Your task to perform on an android device: Show the shopping cart on amazon.com. Search for "dell alienware" on amazon.com, select the first entry, and add it to the cart. Image 0: 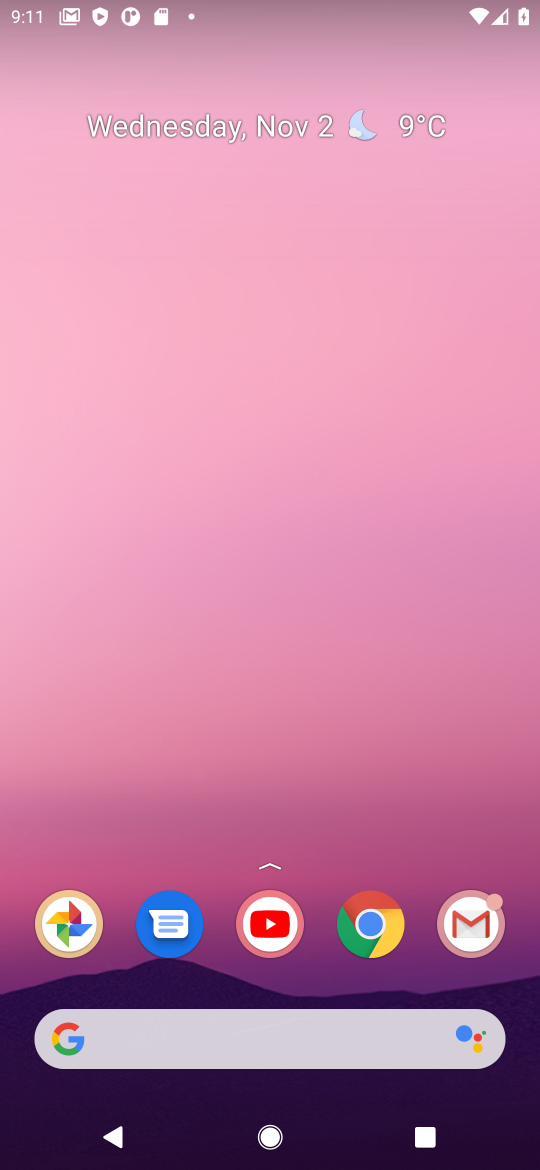
Step 0: click (363, 928)
Your task to perform on an android device: Show the shopping cart on amazon.com. Search for "dell alienware" on amazon.com, select the first entry, and add it to the cart. Image 1: 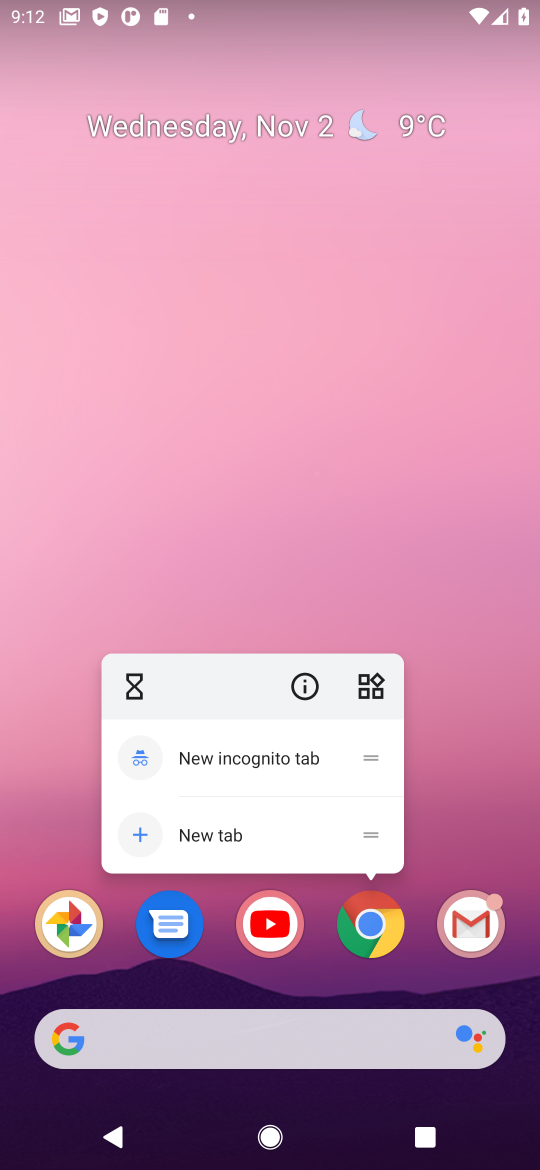
Step 1: click (396, 921)
Your task to perform on an android device: Show the shopping cart on amazon.com. Search for "dell alienware" on amazon.com, select the first entry, and add it to the cart. Image 2: 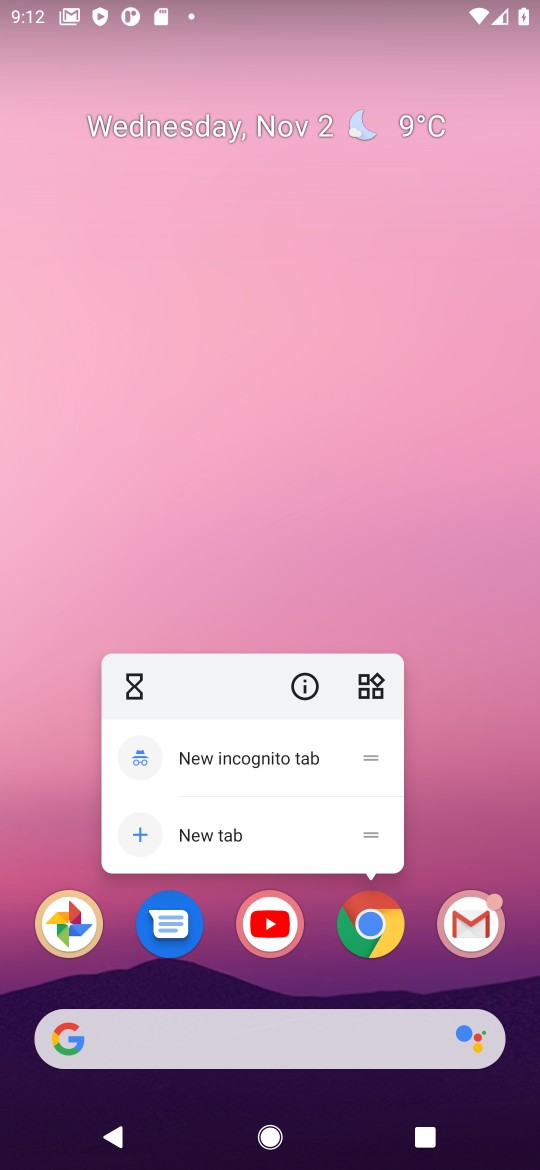
Step 2: click (375, 929)
Your task to perform on an android device: Show the shopping cart on amazon.com. Search for "dell alienware" on amazon.com, select the first entry, and add it to the cart. Image 3: 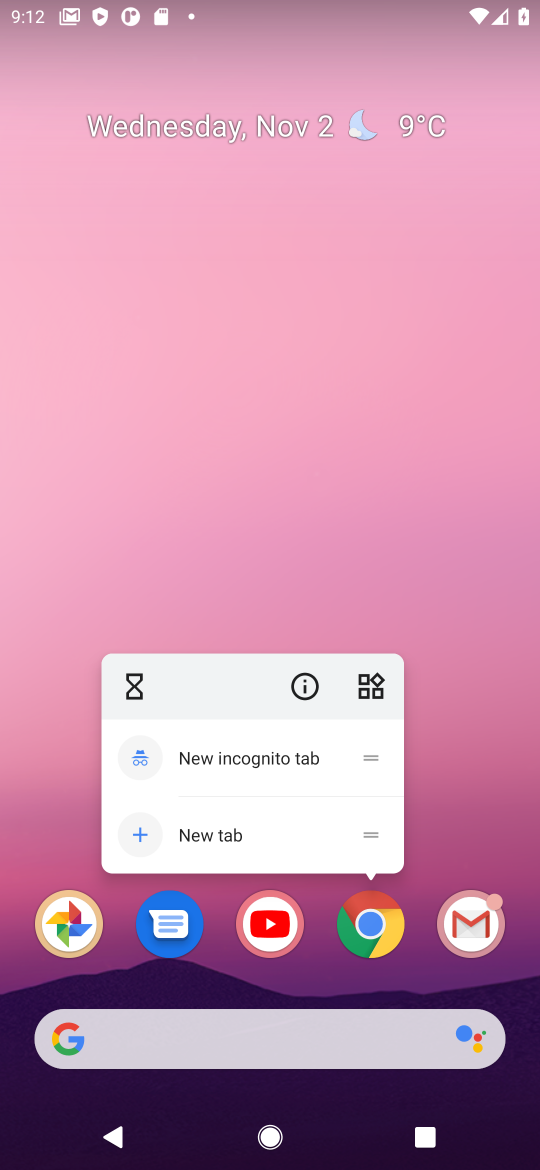
Step 3: click (375, 930)
Your task to perform on an android device: Show the shopping cart on amazon.com. Search for "dell alienware" on amazon.com, select the first entry, and add it to the cart. Image 4: 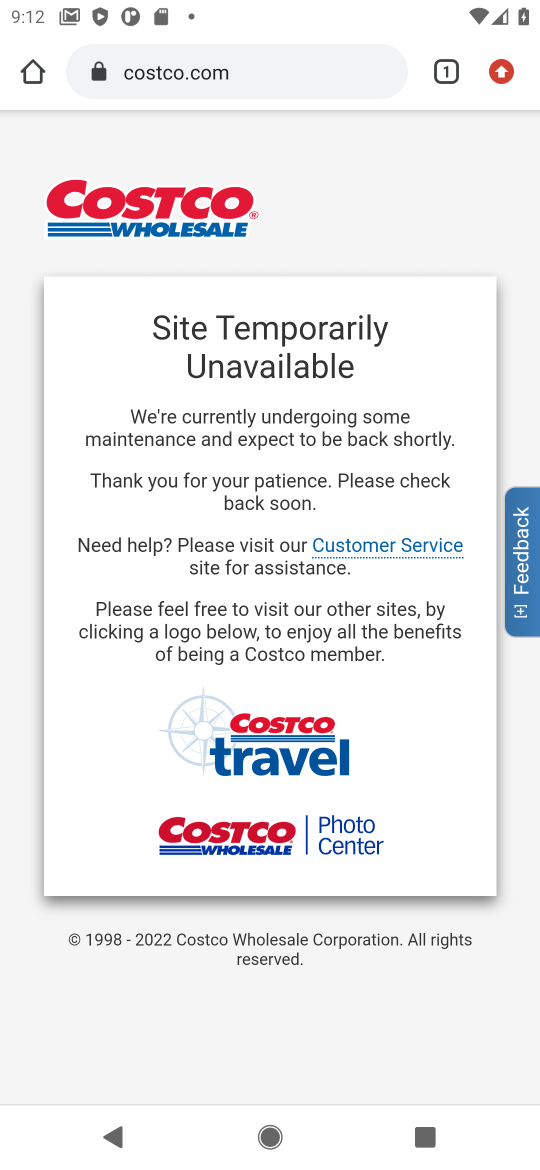
Step 4: click (250, 69)
Your task to perform on an android device: Show the shopping cart on amazon.com. Search for "dell alienware" on amazon.com, select the first entry, and add it to the cart. Image 5: 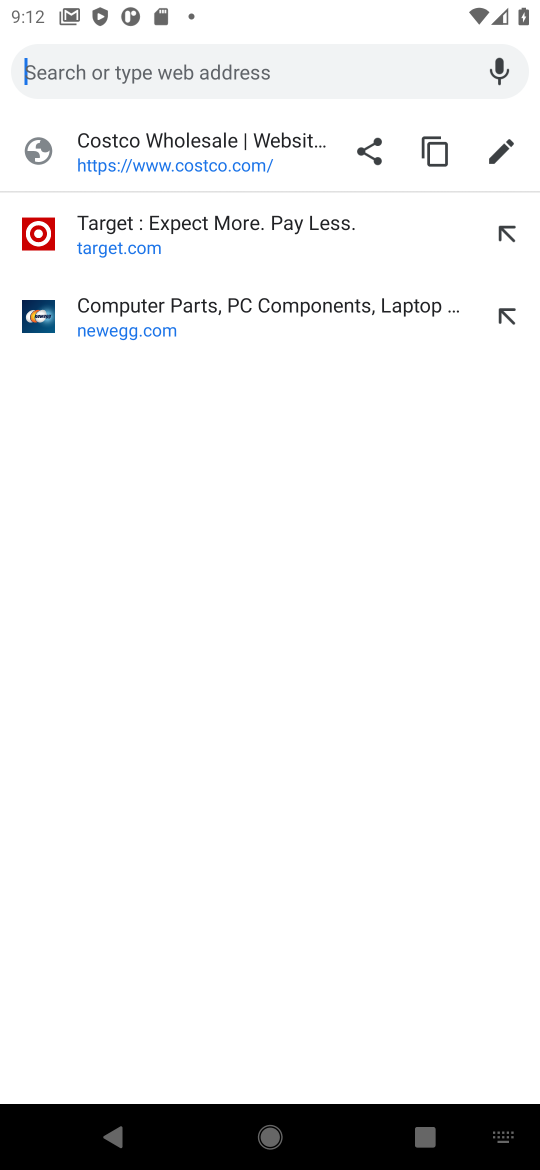
Step 5: type "amazon"
Your task to perform on an android device: Show the shopping cart on amazon.com. Search for "dell alienware" on amazon.com, select the first entry, and add it to the cart. Image 6: 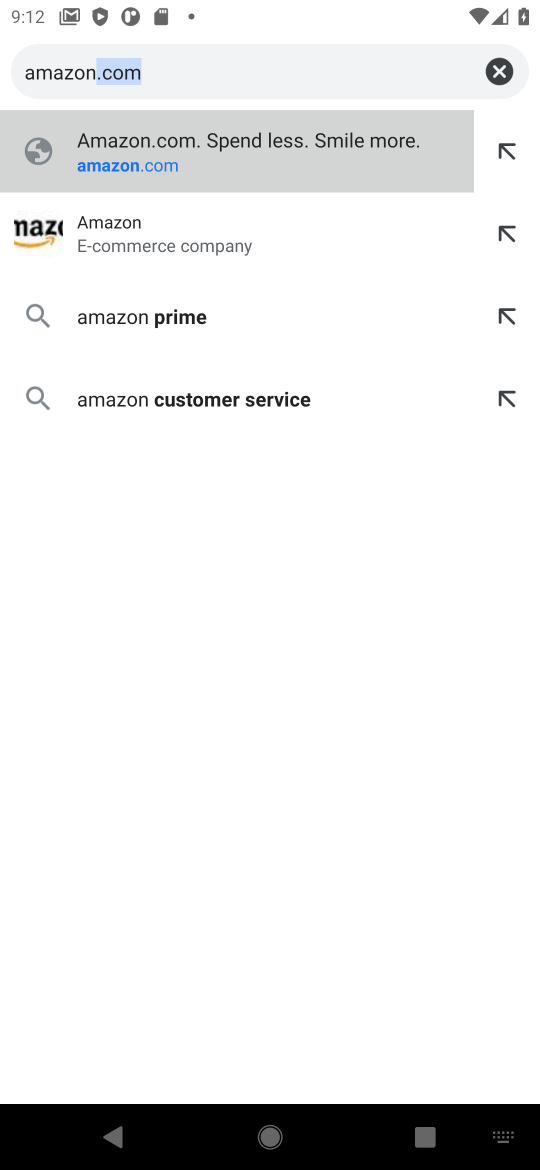
Step 6: click (147, 260)
Your task to perform on an android device: Show the shopping cart on amazon.com. Search for "dell alienware" on amazon.com, select the first entry, and add it to the cart. Image 7: 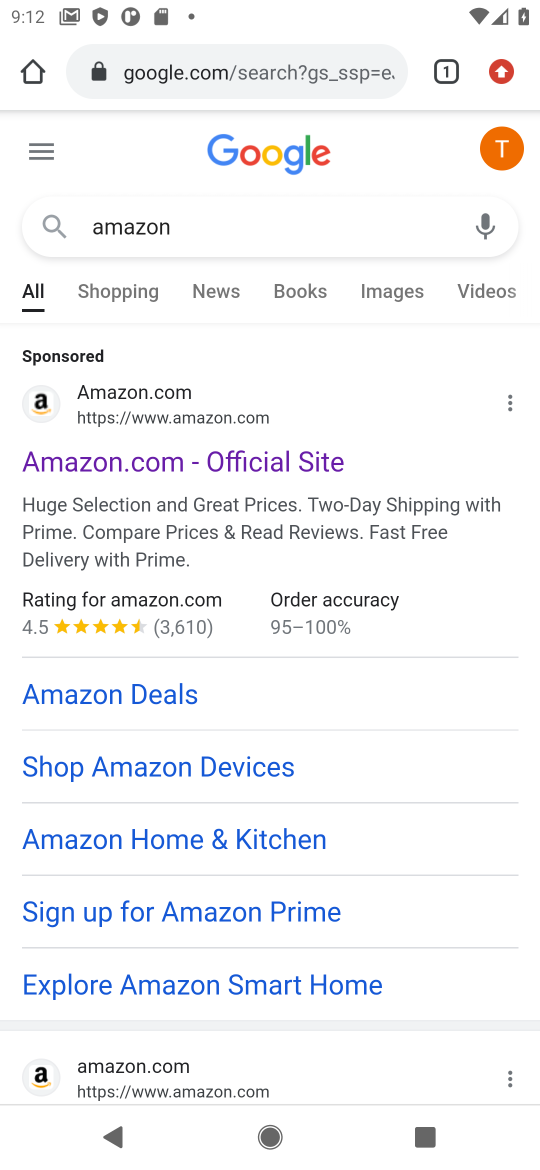
Step 7: drag from (353, 712) to (342, 188)
Your task to perform on an android device: Show the shopping cart on amazon.com. Search for "dell alienware" on amazon.com, select the first entry, and add it to the cart. Image 8: 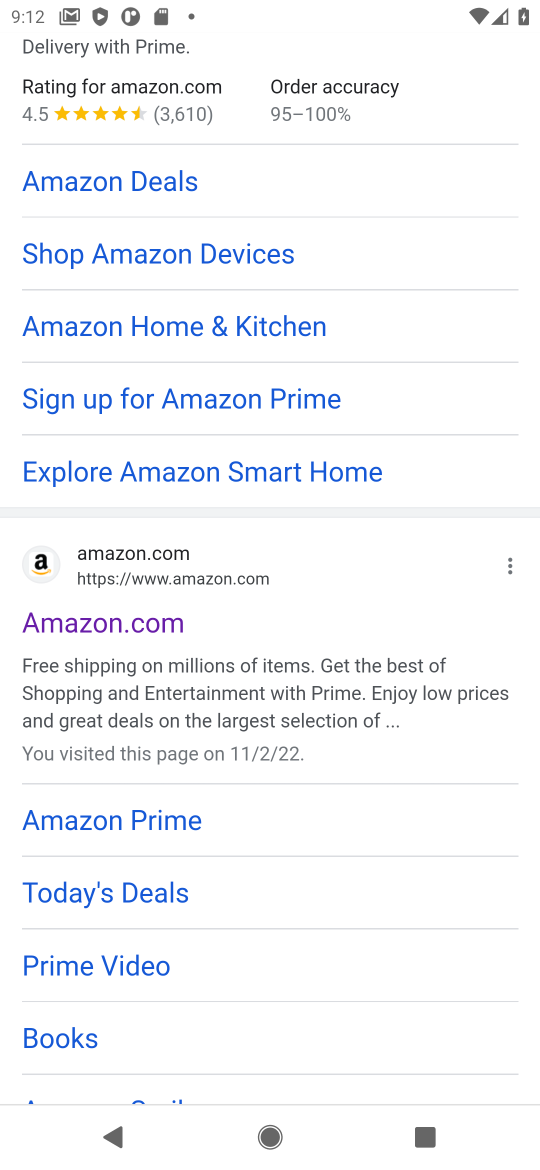
Step 8: click (60, 632)
Your task to perform on an android device: Show the shopping cart on amazon.com. Search for "dell alienware" on amazon.com, select the first entry, and add it to the cart. Image 9: 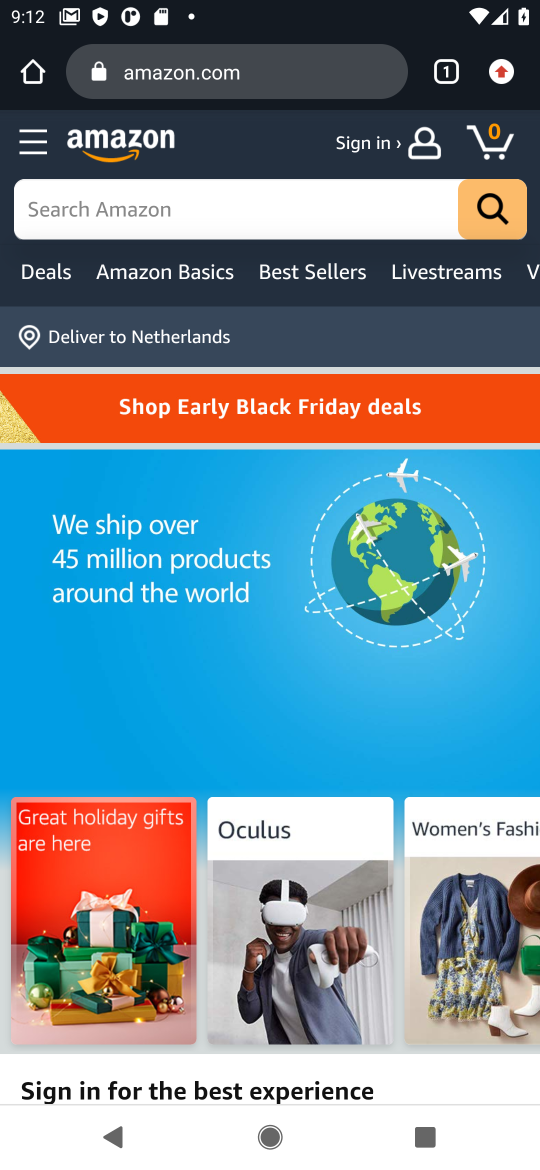
Step 9: click (107, 218)
Your task to perform on an android device: Show the shopping cart on amazon.com. Search for "dell alienware" on amazon.com, select the first entry, and add it to the cart. Image 10: 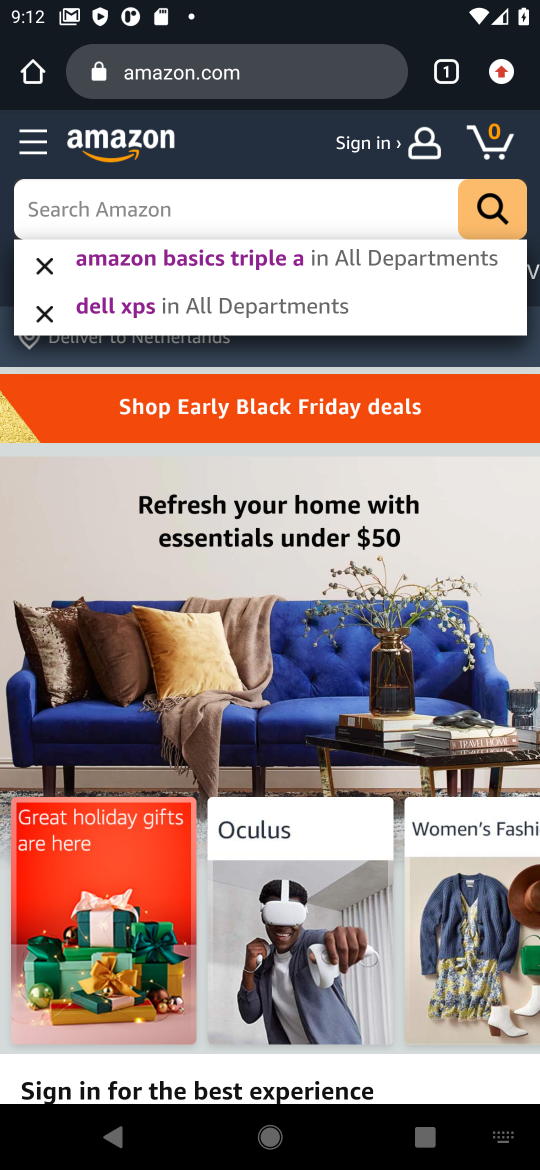
Step 10: type "dell allienware"
Your task to perform on an android device: Show the shopping cart on amazon.com. Search for "dell alienware" on amazon.com, select the first entry, and add it to the cart. Image 11: 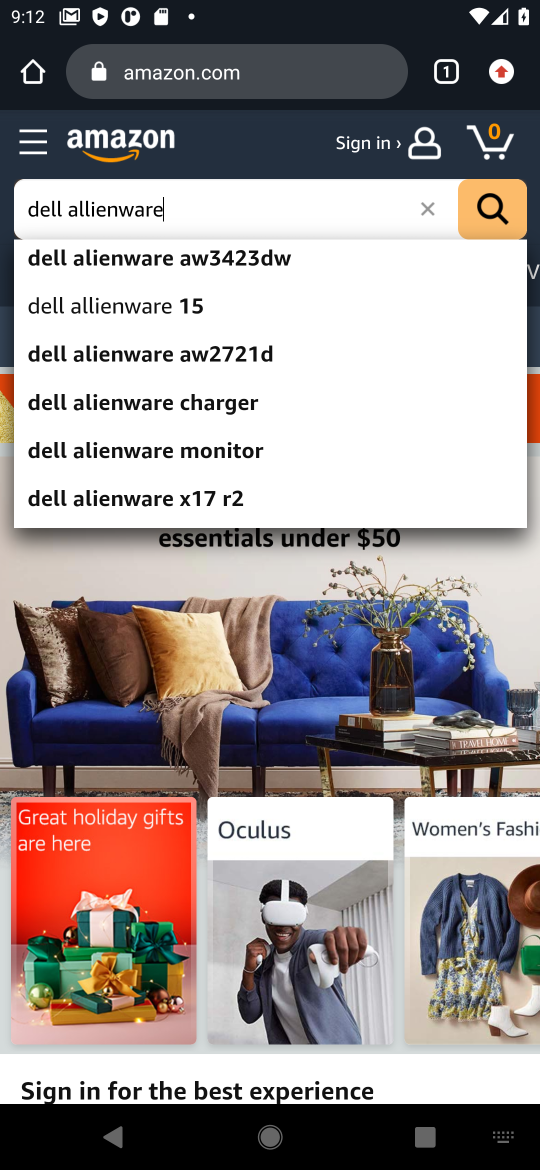
Step 11: type ""
Your task to perform on an android device: Show the shopping cart on amazon.com. Search for "dell alienware" on amazon.com, select the first entry, and add it to the cart. Image 12: 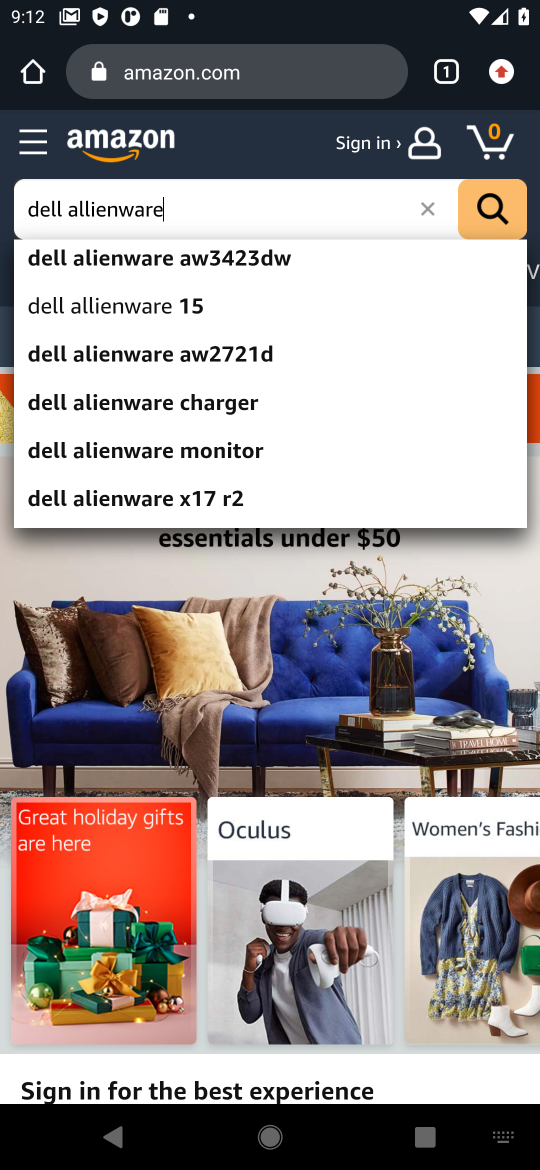
Step 12: click (128, 307)
Your task to perform on an android device: Show the shopping cart on amazon.com. Search for "dell alienware" on amazon.com, select the first entry, and add it to the cart. Image 13: 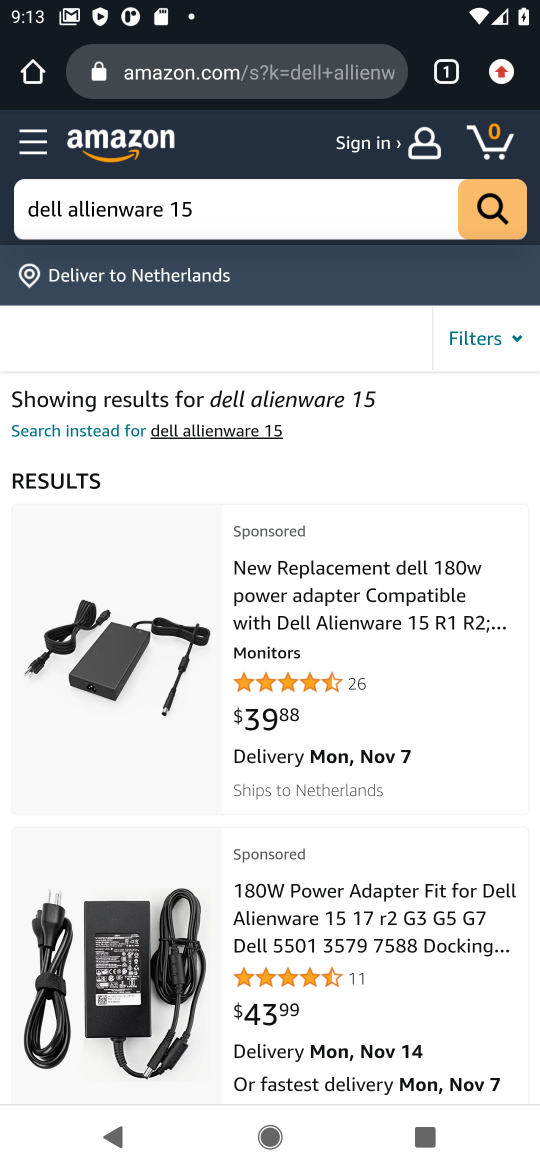
Step 13: drag from (297, 749) to (235, 275)
Your task to perform on an android device: Show the shopping cart on amazon.com. Search for "dell alienware" on amazon.com, select the first entry, and add it to the cart. Image 14: 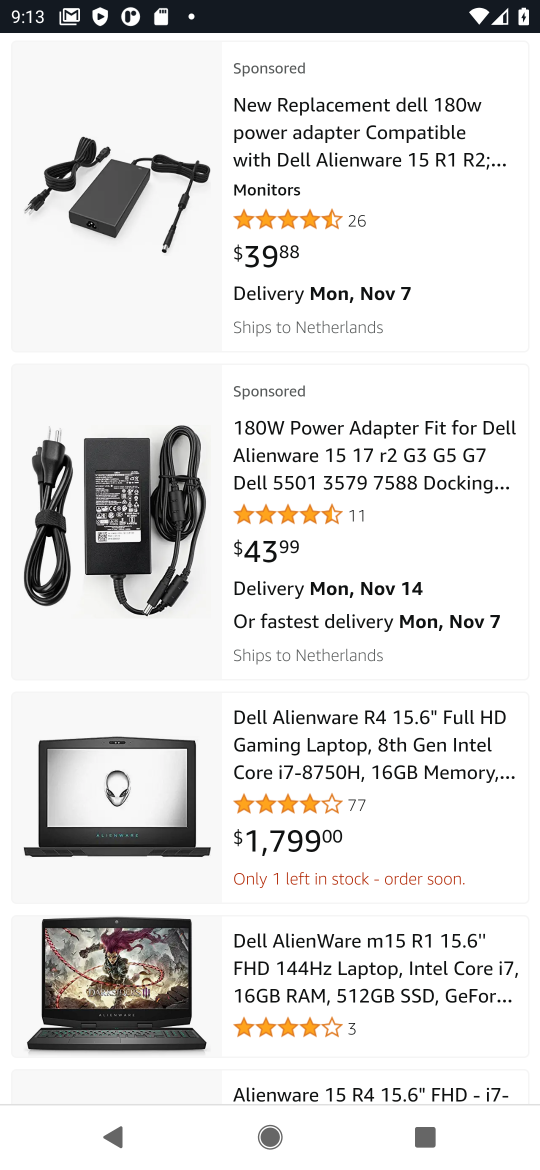
Step 14: click (297, 760)
Your task to perform on an android device: Show the shopping cart on amazon.com. Search for "dell alienware" on amazon.com, select the first entry, and add it to the cart. Image 15: 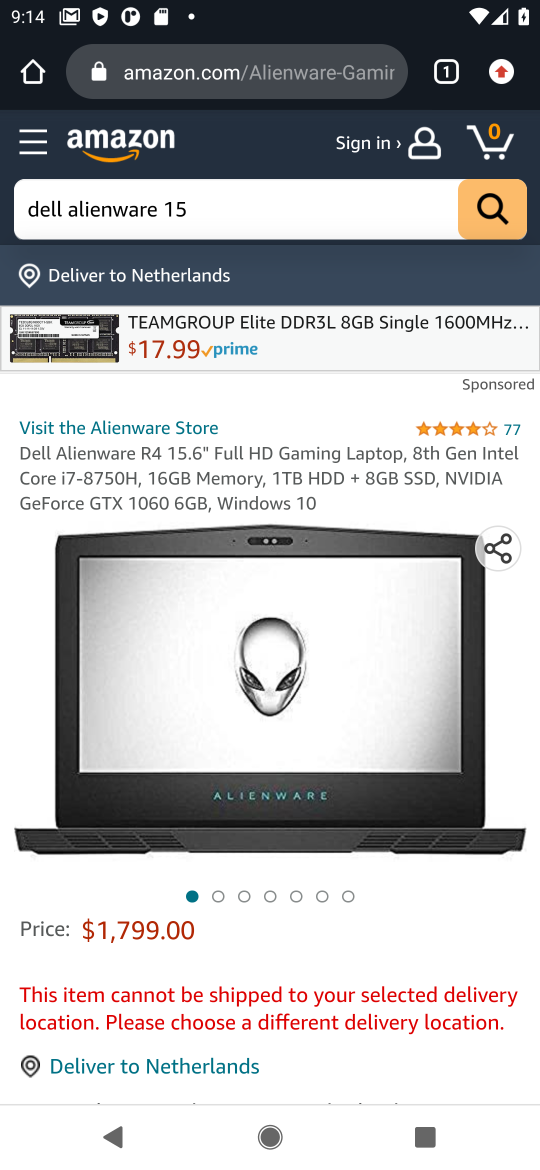
Step 15: drag from (244, 849) to (262, 497)
Your task to perform on an android device: Show the shopping cart on amazon.com. Search for "dell alienware" on amazon.com, select the first entry, and add it to the cart. Image 16: 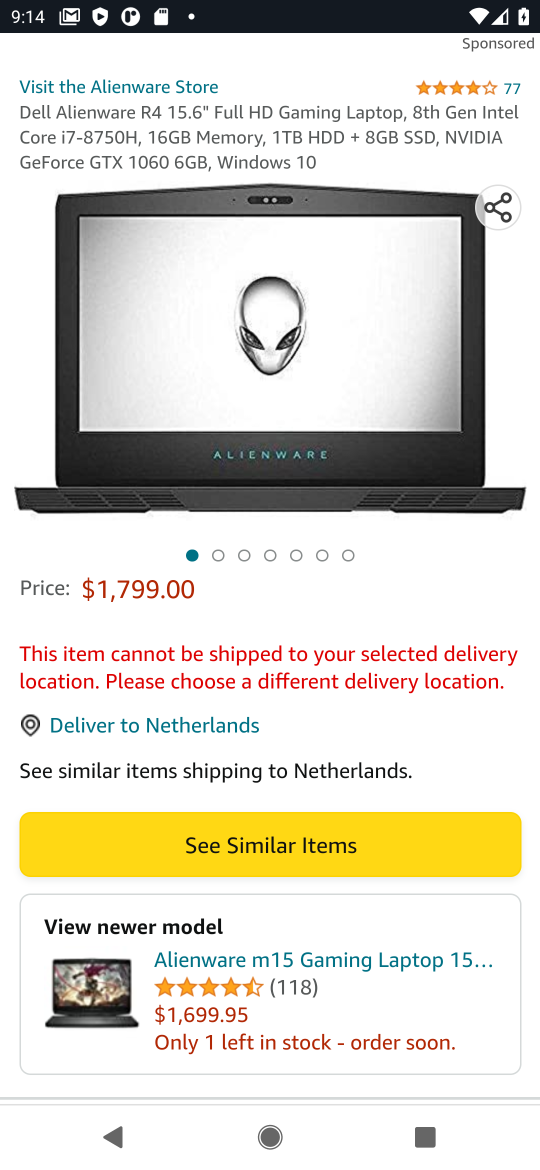
Step 16: drag from (321, 1039) to (332, 477)
Your task to perform on an android device: Show the shopping cart on amazon.com. Search for "dell alienware" on amazon.com, select the first entry, and add it to the cart. Image 17: 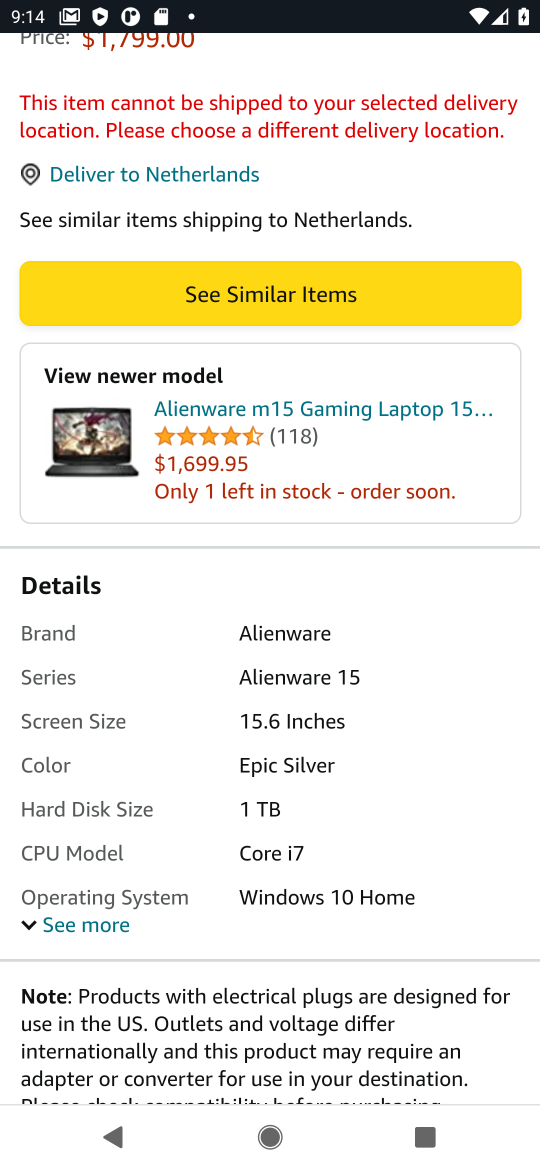
Step 17: drag from (329, 1000) to (111, 41)
Your task to perform on an android device: Show the shopping cart on amazon.com. Search for "dell alienware" on amazon.com, select the first entry, and add it to the cart. Image 18: 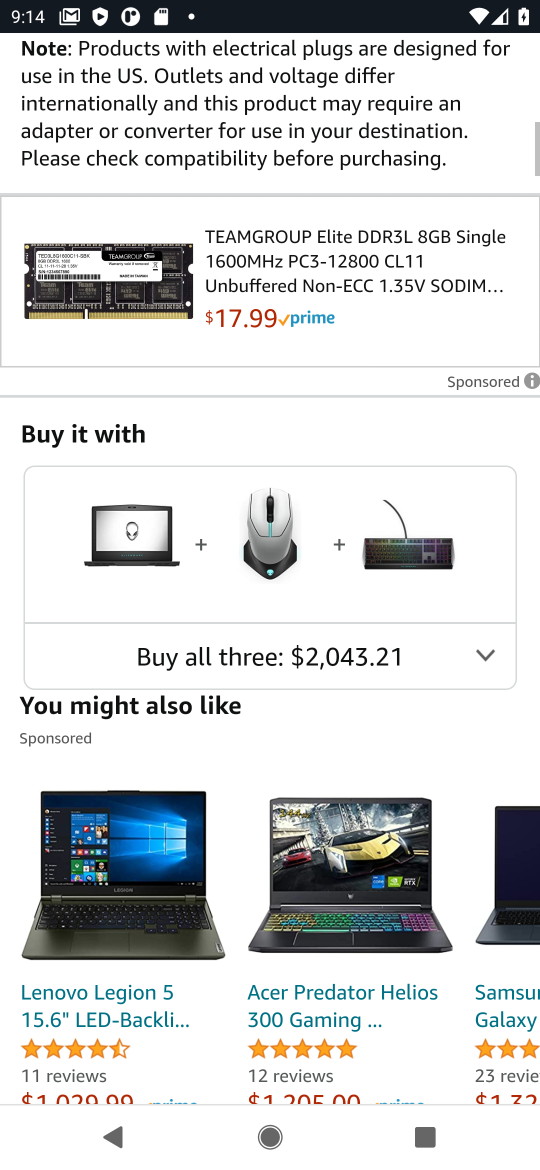
Step 18: drag from (81, 872) to (42, 468)
Your task to perform on an android device: Show the shopping cart on amazon.com. Search for "dell alienware" on amazon.com, select the first entry, and add it to the cart. Image 19: 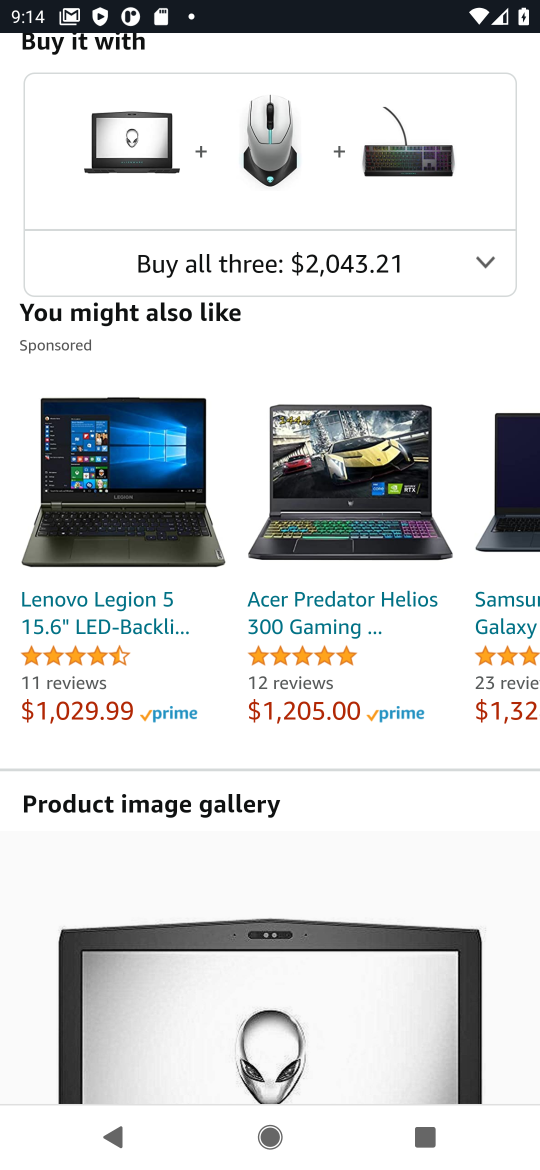
Step 19: drag from (127, 384) to (141, 905)
Your task to perform on an android device: Show the shopping cart on amazon.com. Search for "dell alienware" on amazon.com, select the first entry, and add it to the cart. Image 20: 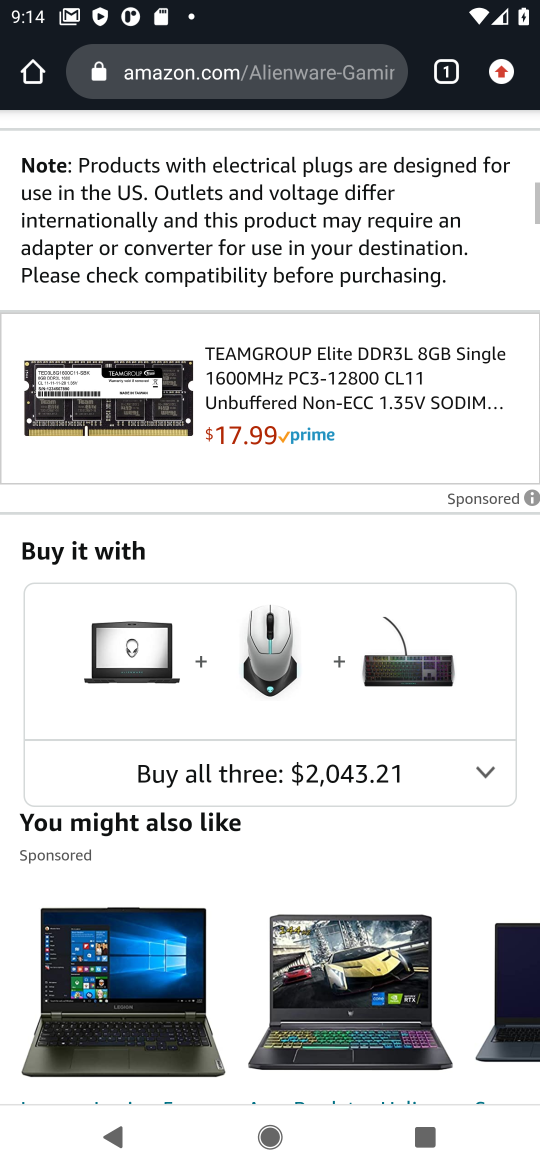
Step 20: drag from (92, 386) to (121, 954)
Your task to perform on an android device: Show the shopping cart on amazon.com. Search for "dell alienware" on amazon.com, select the first entry, and add it to the cart. Image 21: 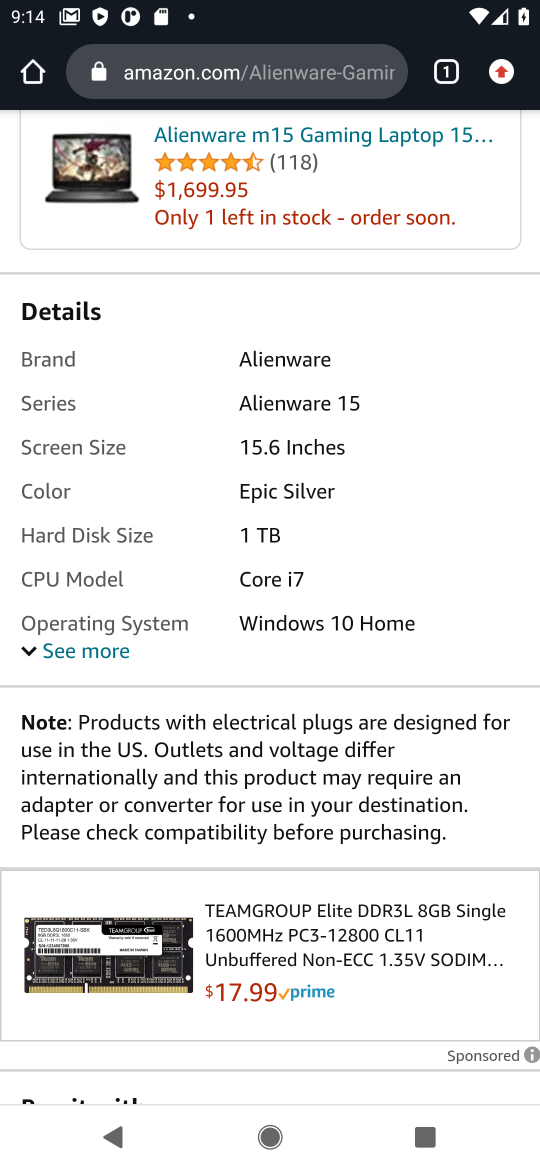
Step 21: drag from (144, 338) to (115, 977)
Your task to perform on an android device: Show the shopping cart on amazon.com. Search for "dell alienware" on amazon.com, select the first entry, and add it to the cart. Image 22: 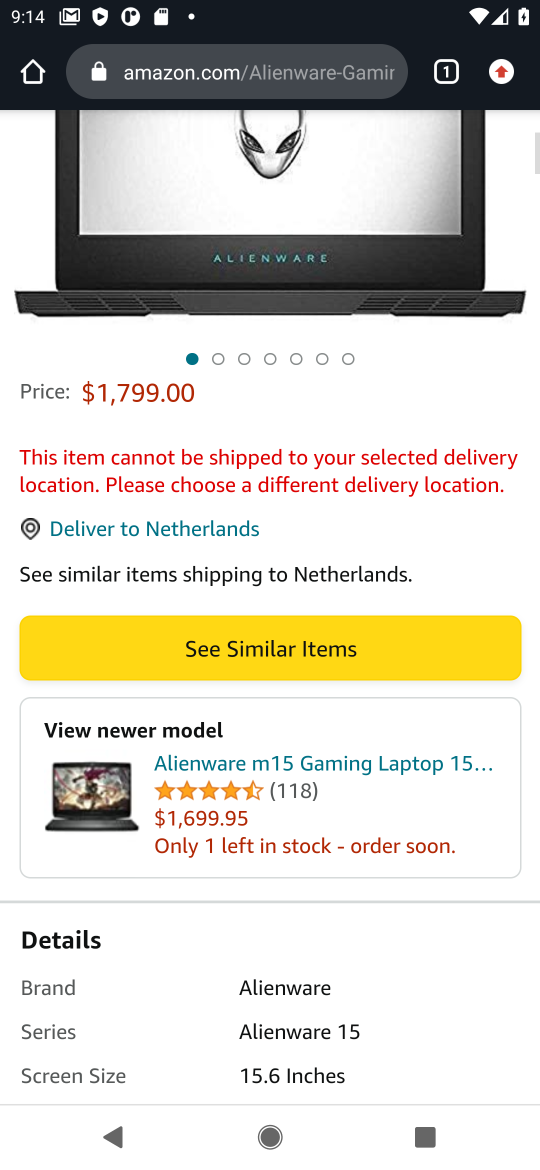
Step 22: drag from (267, 345) to (189, 840)
Your task to perform on an android device: Show the shopping cart on amazon.com. Search for "dell alienware" on amazon.com, select the first entry, and add it to the cart. Image 23: 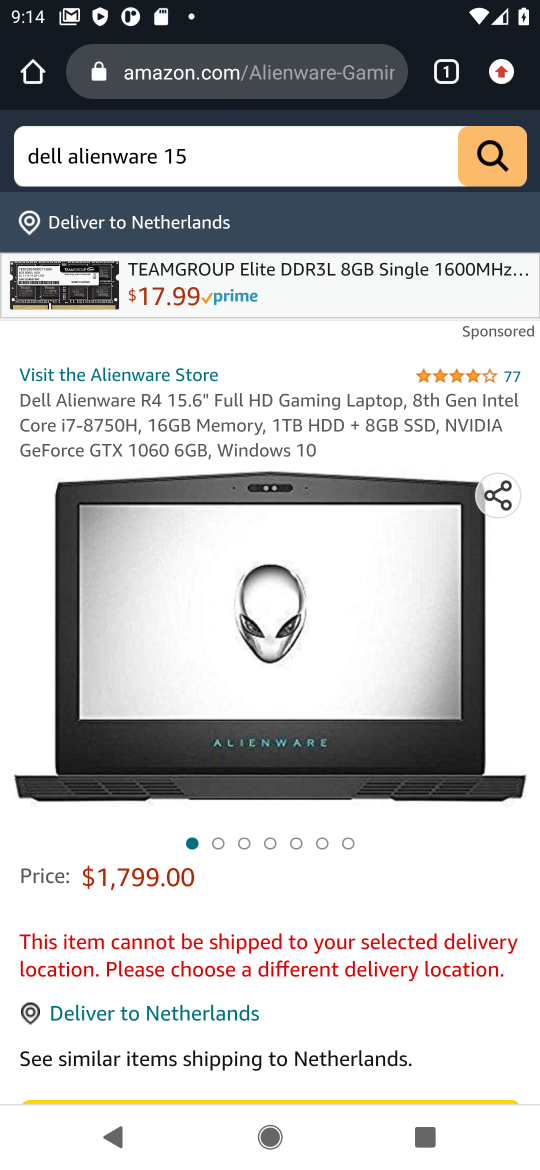
Step 23: drag from (168, 897) to (161, 449)
Your task to perform on an android device: Show the shopping cart on amazon.com. Search for "dell alienware" on amazon.com, select the first entry, and add it to the cart. Image 24: 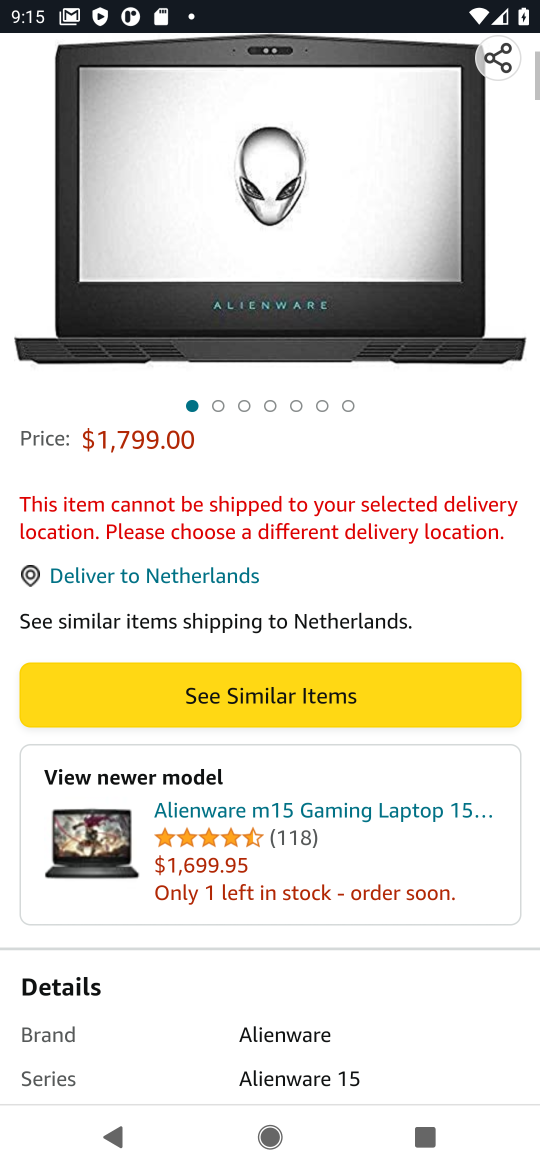
Step 24: drag from (50, 1039) to (64, 577)
Your task to perform on an android device: Show the shopping cart on amazon.com. Search for "dell alienware" on amazon.com, select the first entry, and add it to the cart. Image 25: 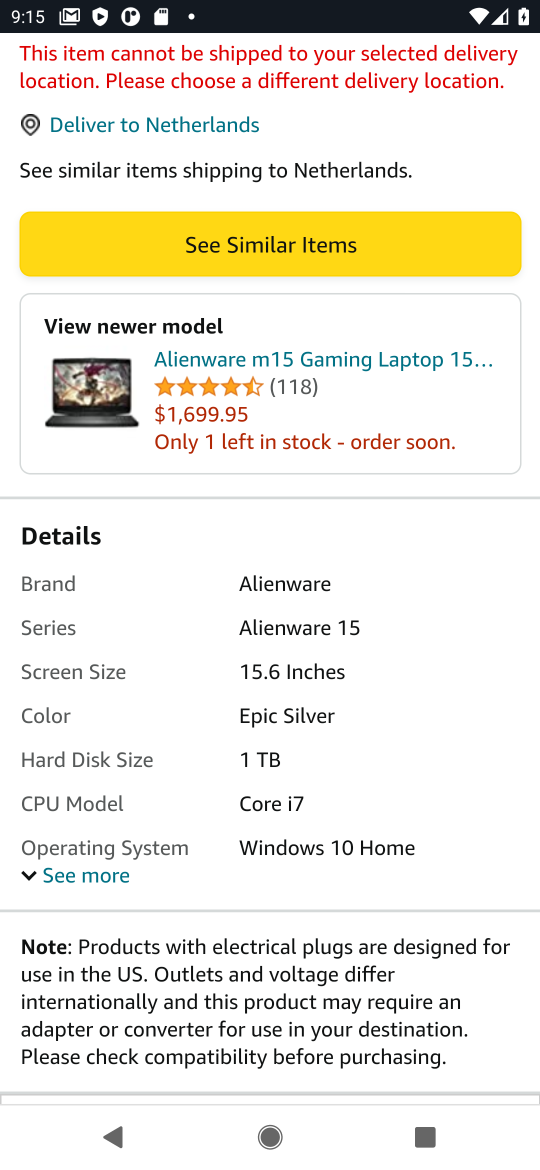
Step 25: drag from (116, 979) to (208, 655)
Your task to perform on an android device: Show the shopping cart on amazon.com. Search for "dell alienware" on amazon.com, select the first entry, and add it to the cart. Image 26: 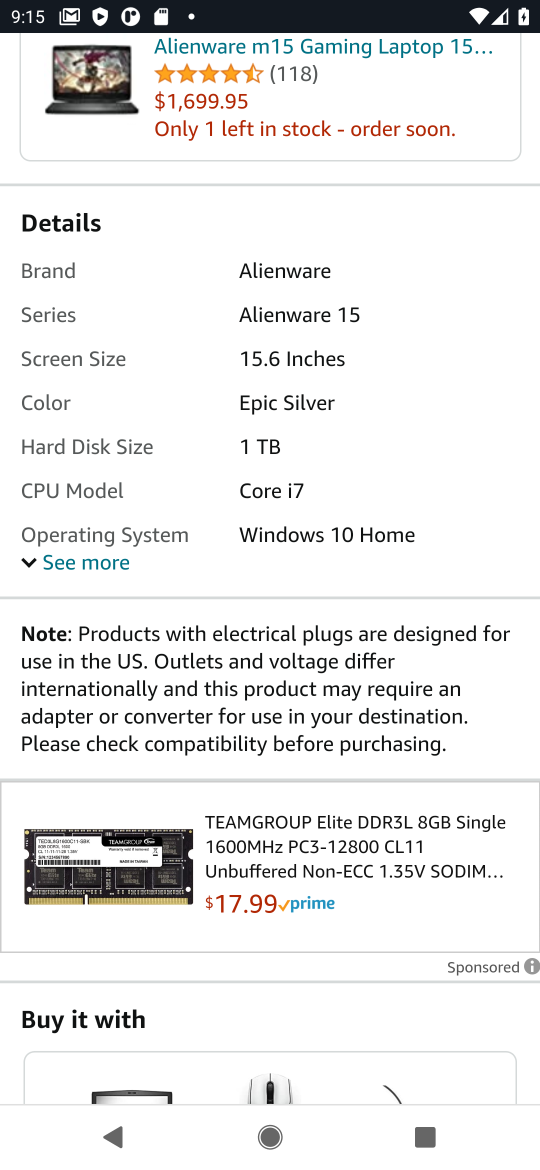
Step 26: drag from (204, 1017) to (236, 520)
Your task to perform on an android device: Show the shopping cart on amazon.com. Search for "dell alienware" on amazon.com, select the first entry, and add it to the cart. Image 27: 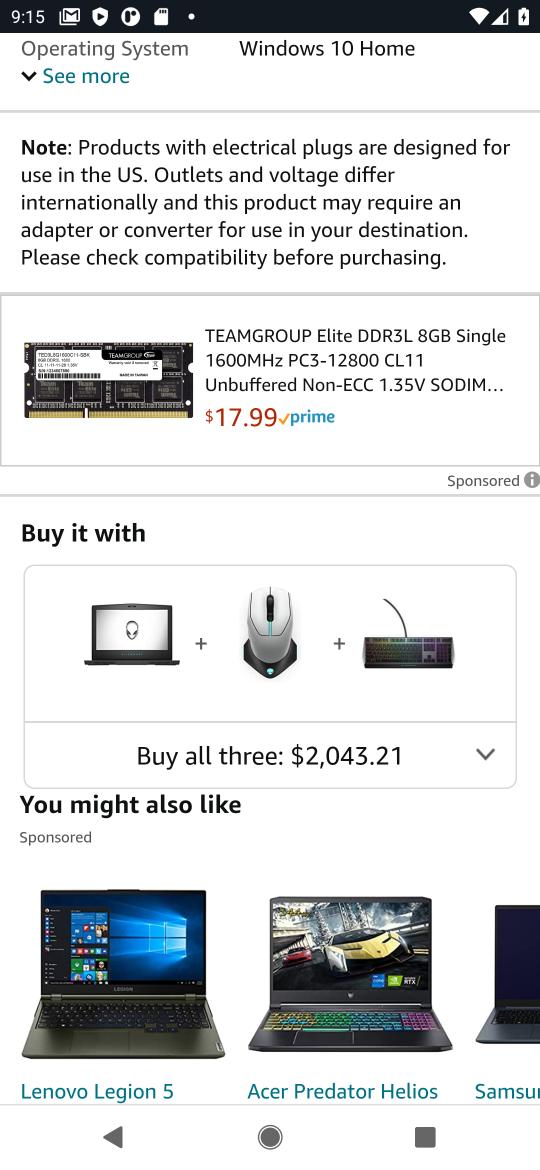
Step 27: drag from (166, 843) to (211, 459)
Your task to perform on an android device: Show the shopping cart on amazon.com. Search for "dell alienware" on amazon.com, select the first entry, and add it to the cart. Image 28: 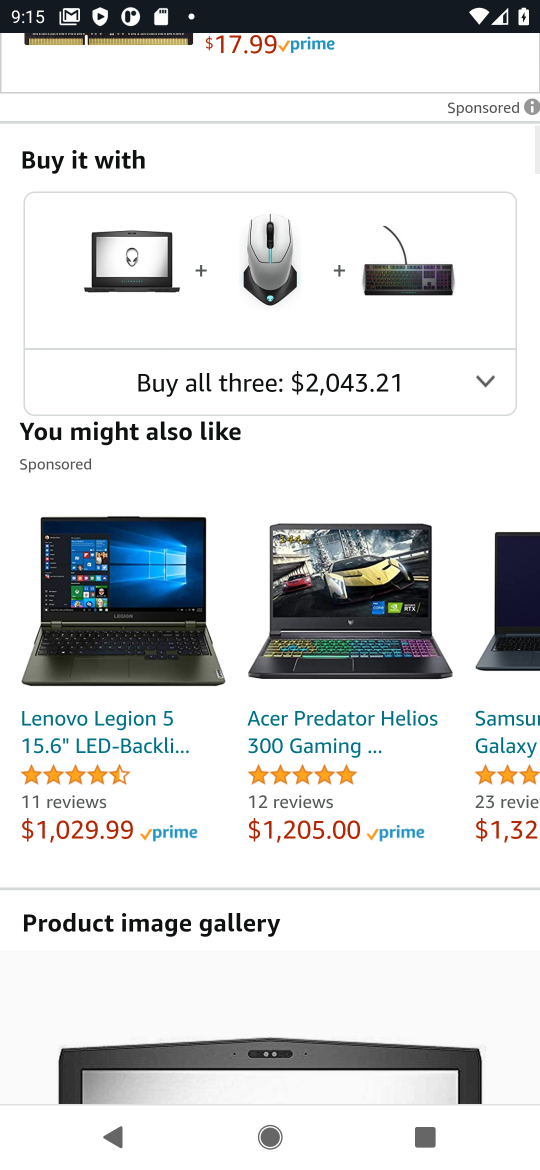
Step 28: drag from (302, 1033) to (330, 546)
Your task to perform on an android device: Show the shopping cart on amazon.com. Search for "dell alienware" on amazon.com, select the first entry, and add it to the cart. Image 29: 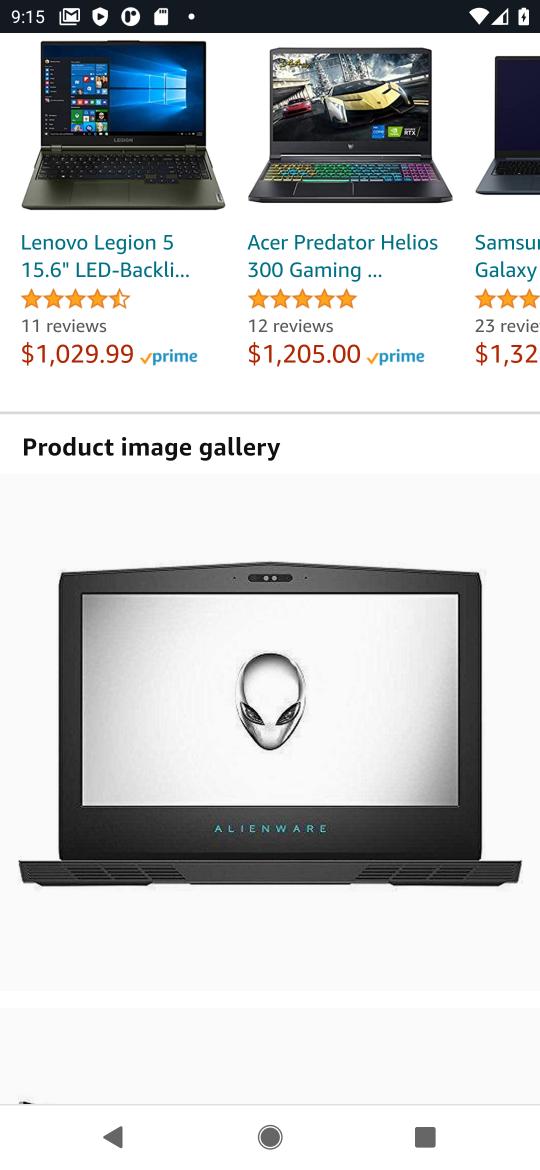
Step 29: drag from (93, 1039) to (74, 641)
Your task to perform on an android device: Show the shopping cart on amazon.com. Search for "dell alienware" on amazon.com, select the first entry, and add it to the cart. Image 30: 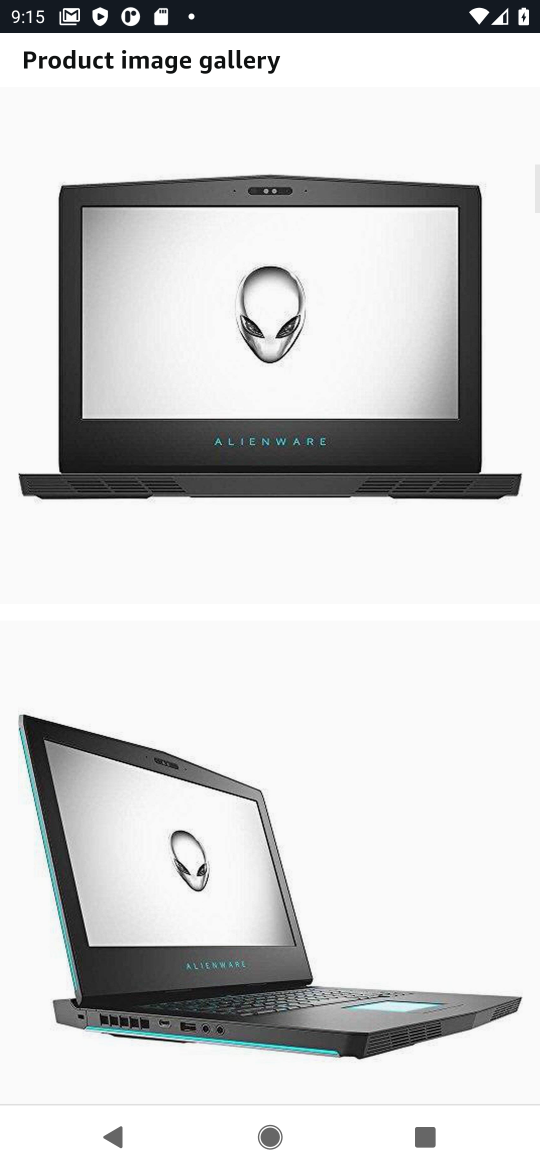
Step 30: drag from (1, 844) to (14, 441)
Your task to perform on an android device: Show the shopping cart on amazon.com. Search for "dell alienware" on amazon.com, select the first entry, and add it to the cart. Image 31: 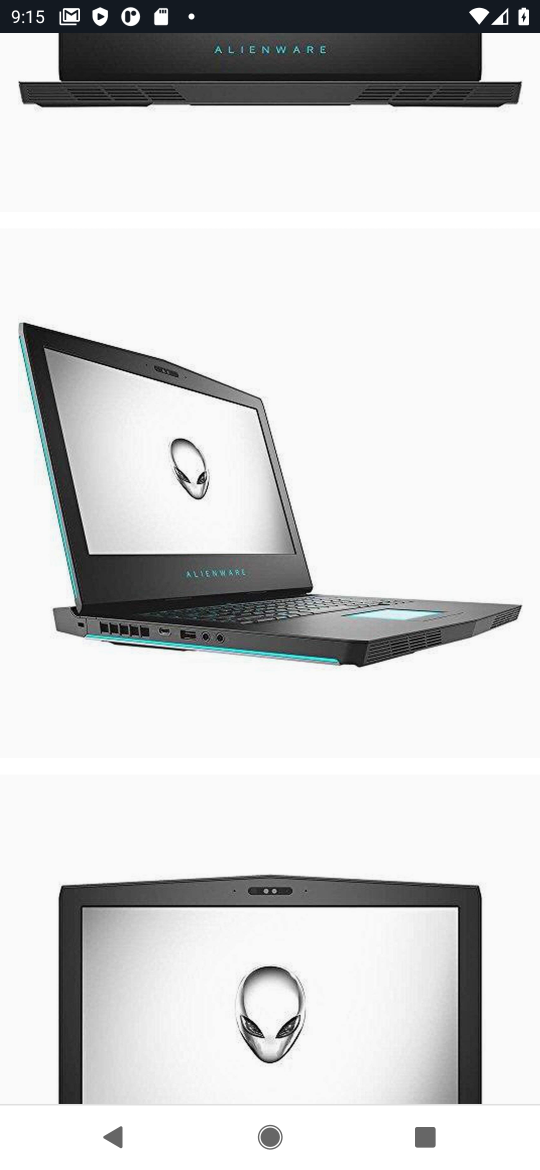
Step 31: drag from (369, 830) to (390, 563)
Your task to perform on an android device: Show the shopping cart on amazon.com. Search for "dell alienware" on amazon.com, select the first entry, and add it to the cart. Image 32: 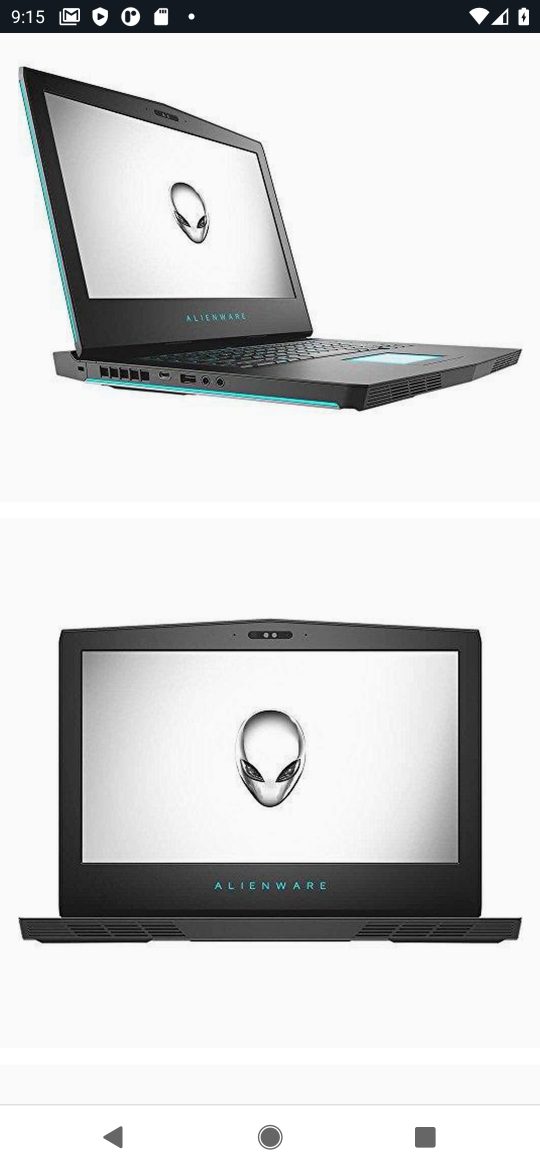
Step 32: drag from (94, 957) to (146, 10)
Your task to perform on an android device: Show the shopping cart on amazon.com. Search for "dell alienware" on amazon.com, select the first entry, and add it to the cart. Image 33: 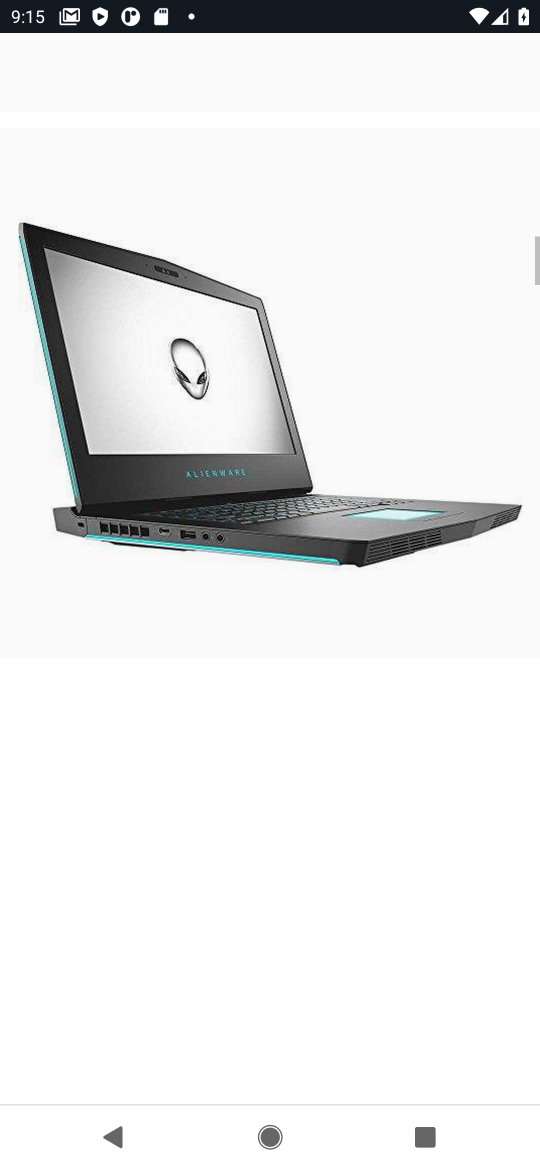
Step 33: drag from (161, 788) to (165, 85)
Your task to perform on an android device: Show the shopping cart on amazon.com. Search for "dell alienware" on amazon.com, select the first entry, and add it to the cart. Image 34: 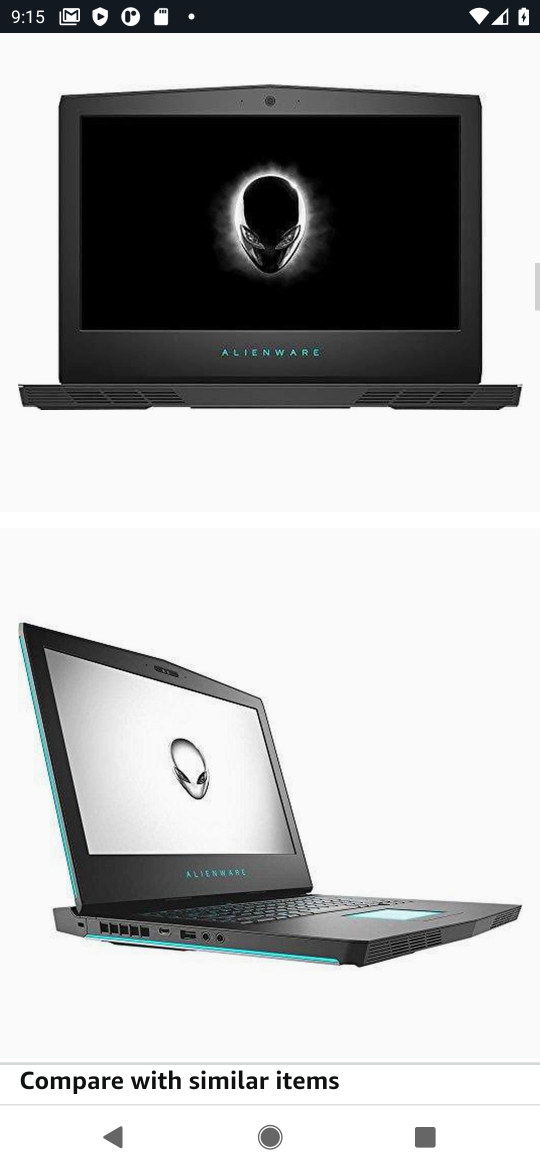
Step 34: drag from (159, 772) to (135, 161)
Your task to perform on an android device: Show the shopping cart on amazon.com. Search for "dell alienware" on amazon.com, select the first entry, and add it to the cart. Image 35: 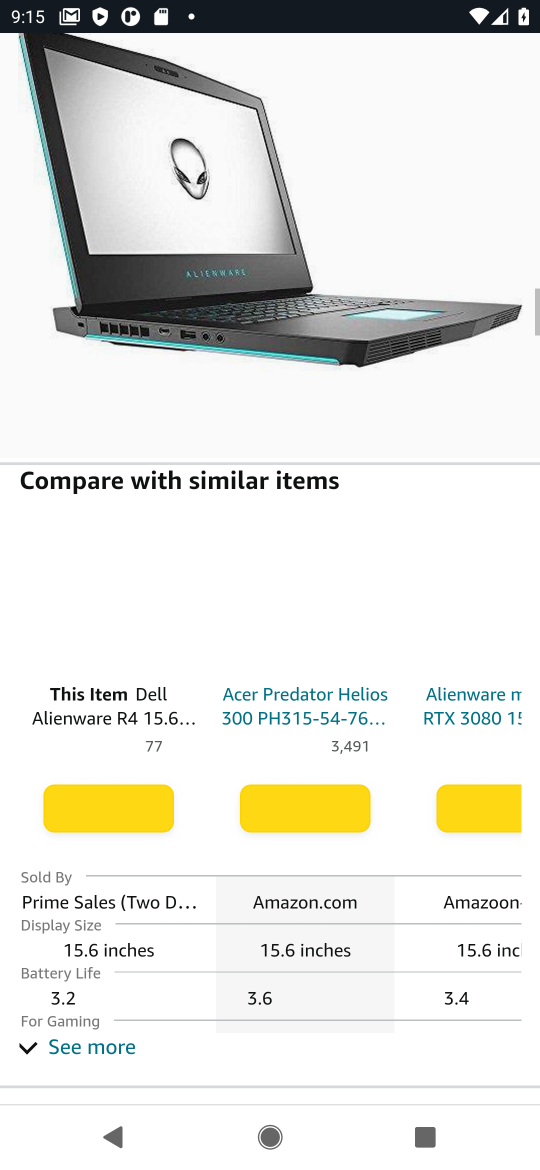
Step 35: drag from (122, 1033) to (125, 521)
Your task to perform on an android device: Show the shopping cart on amazon.com. Search for "dell alienware" on amazon.com, select the first entry, and add it to the cart. Image 36: 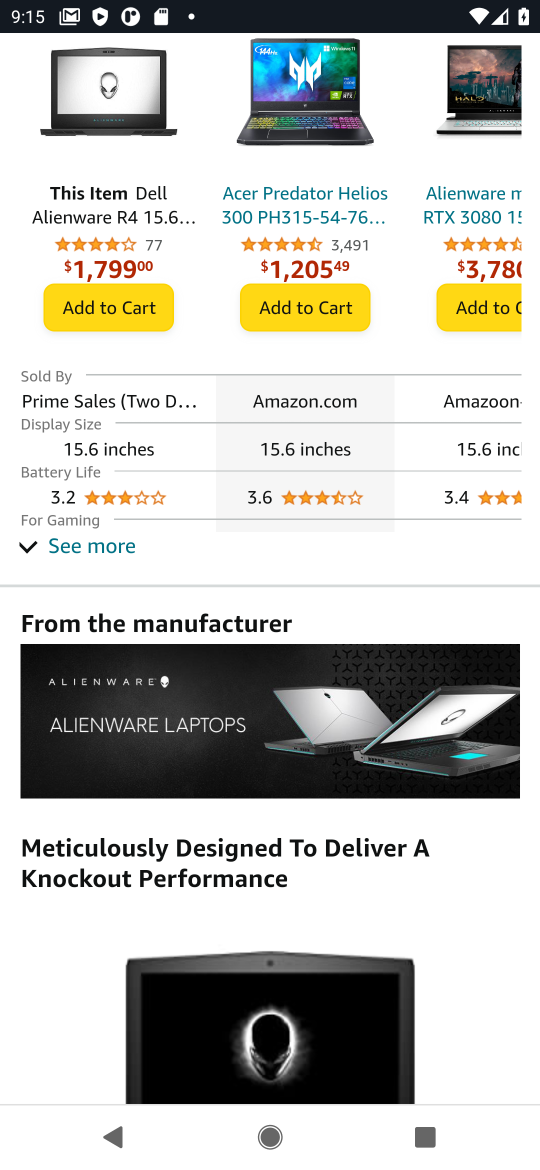
Step 36: drag from (191, 1114) to (44, 569)
Your task to perform on an android device: Show the shopping cart on amazon.com. Search for "dell alienware" on amazon.com, select the first entry, and add it to the cart. Image 37: 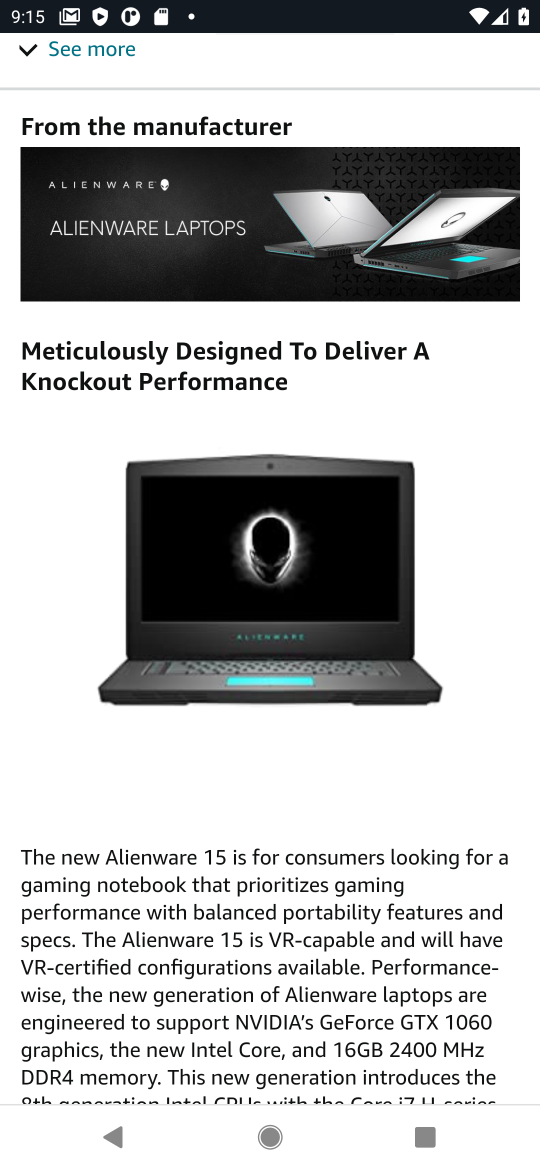
Step 37: drag from (161, 1052) to (213, 533)
Your task to perform on an android device: Show the shopping cart on amazon.com. Search for "dell alienware" on amazon.com, select the first entry, and add it to the cart. Image 38: 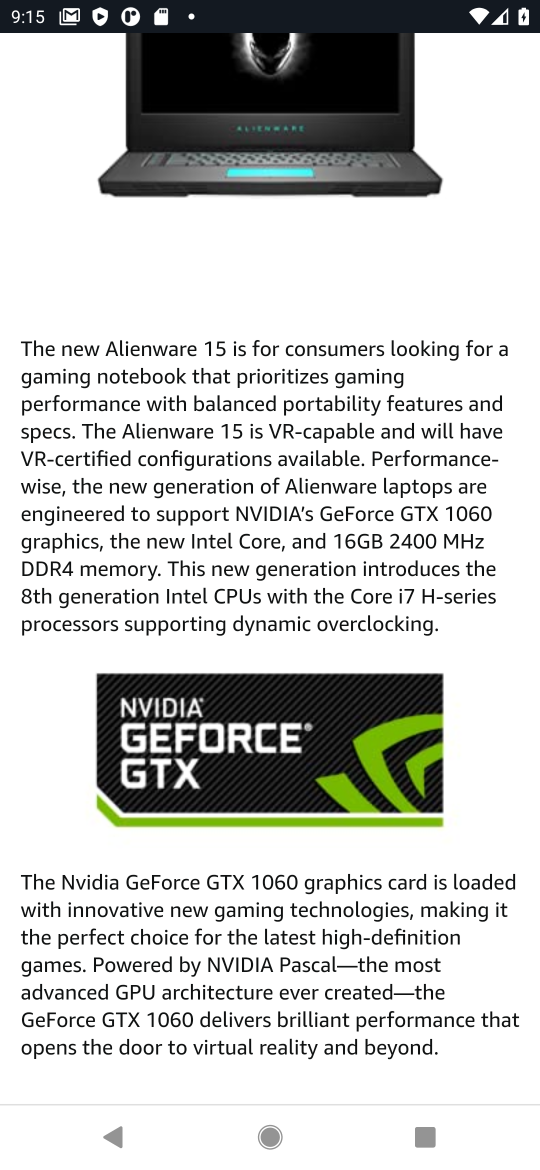
Step 38: drag from (206, 1031) to (190, 727)
Your task to perform on an android device: Show the shopping cart on amazon.com. Search for "dell alienware" on amazon.com, select the first entry, and add it to the cart. Image 39: 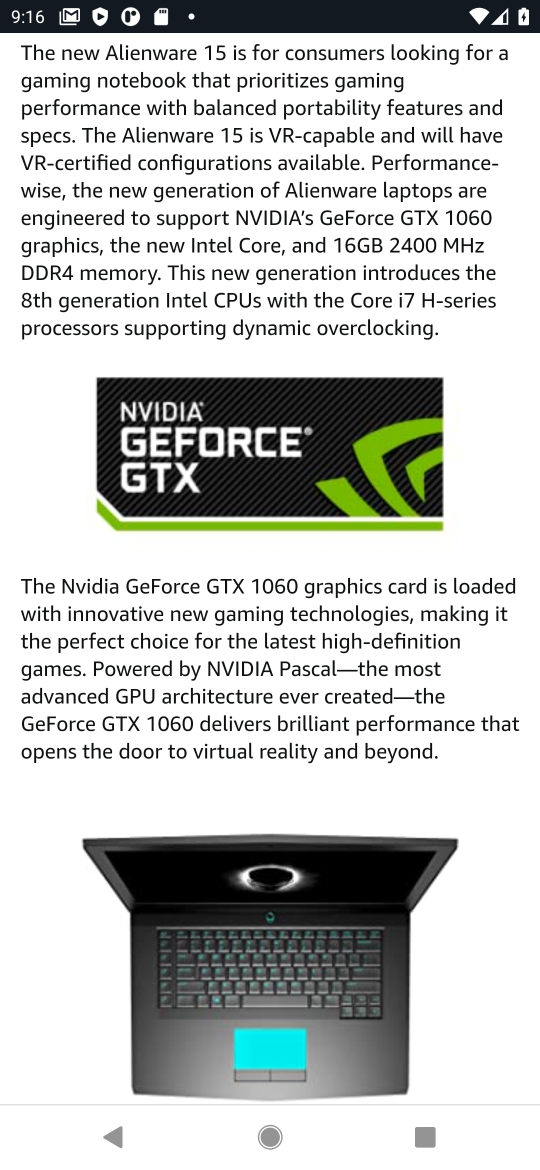
Step 39: drag from (378, 1062) to (325, 9)
Your task to perform on an android device: Show the shopping cart on amazon.com. Search for "dell alienware" on amazon.com, select the first entry, and add it to the cart. Image 40: 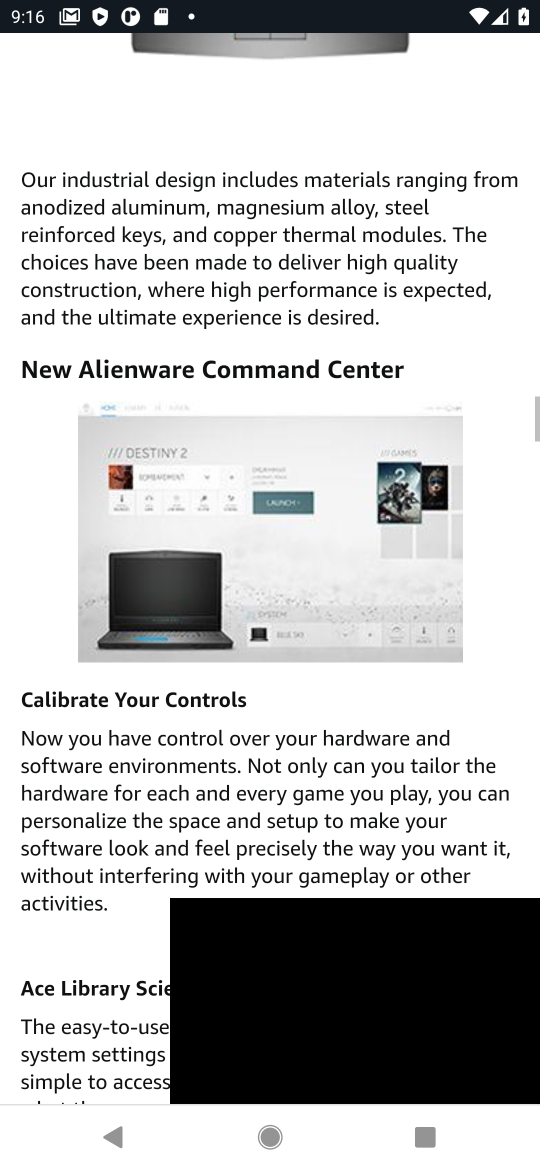
Step 40: drag from (149, 984) to (159, 262)
Your task to perform on an android device: Show the shopping cart on amazon.com. Search for "dell alienware" on amazon.com, select the first entry, and add it to the cart. Image 41: 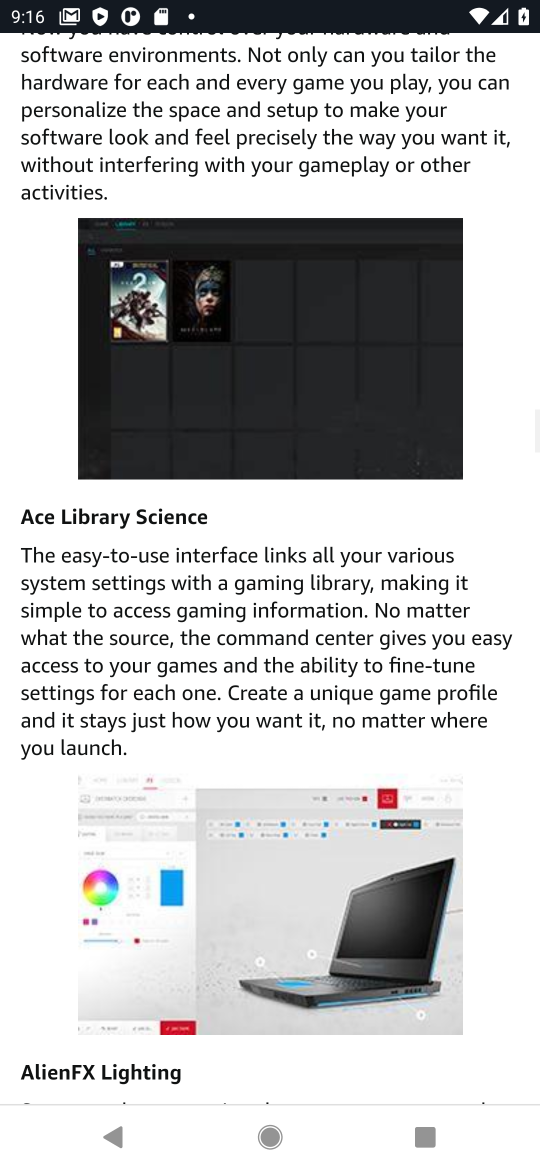
Step 41: drag from (185, 909) to (166, 495)
Your task to perform on an android device: Show the shopping cart on amazon.com. Search for "dell alienware" on amazon.com, select the first entry, and add it to the cart. Image 42: 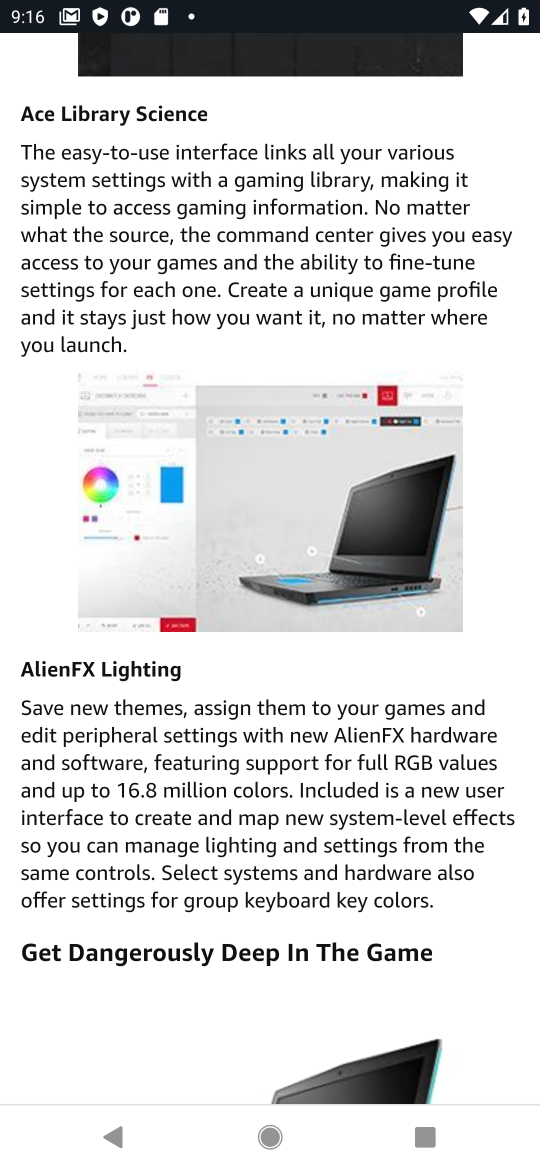
Step 42: drag from (113, 957) to (194, 229)
Your task to perform on an android device: Show the shopping cart on amazon.com. Search for "dell alienware" on amazon.com, select the first entry, and add it to the cart. Image 43: 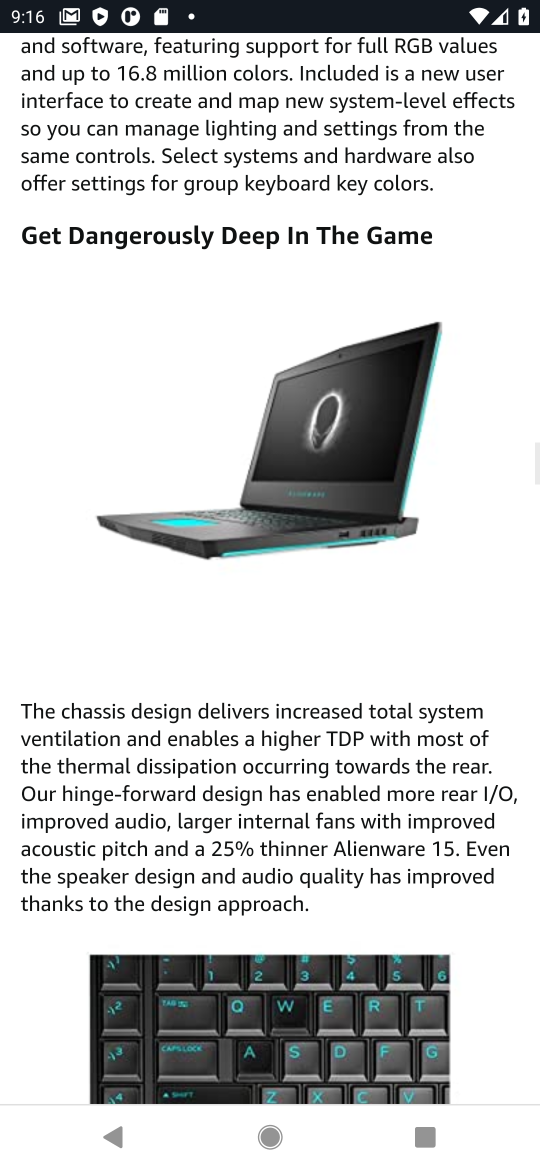
Step 43: drag from (336, 704) to (325, 107)
Your task to perform on an android device: Show the shopping cart on amazon.com. Search for "dell alienware" on amazon.com, select the first entry, and add it to the cart. Image 44: 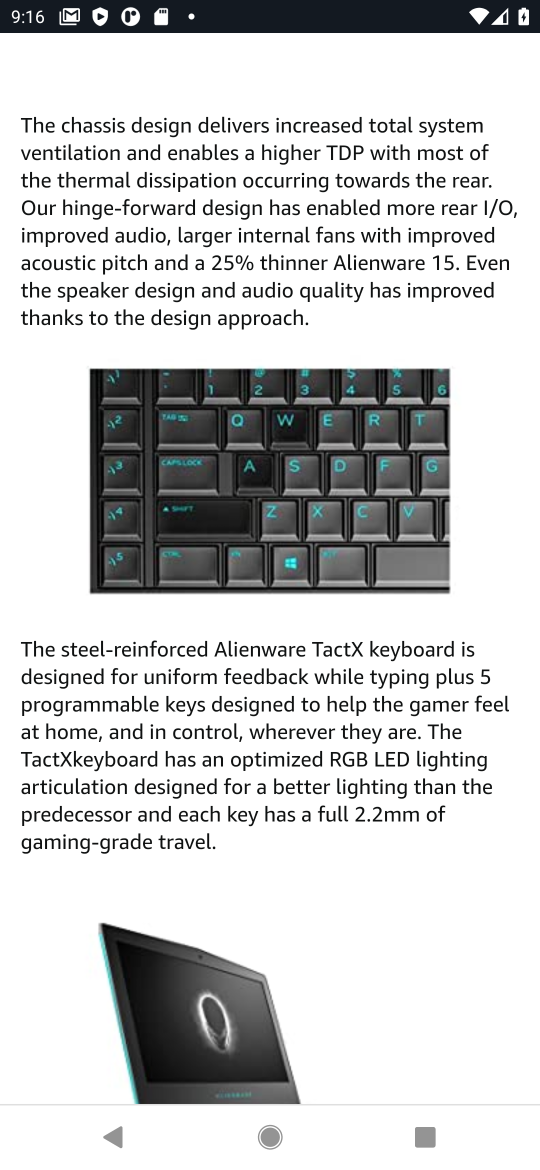
Step 44: drag from (372, 238) to (263, 888)
Your task to perform on an android device: Show the shopping cart on amazon.com. Search for "dell alienware" on amazon.com, select the first entry, and add it to the cart. Image 45: 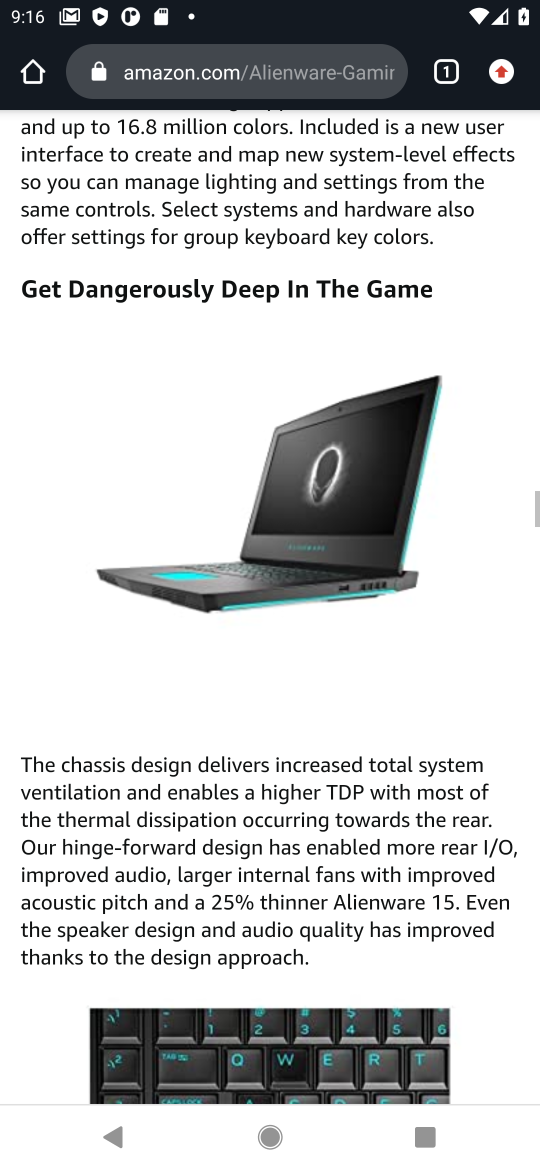
Step 45: drag from (325, 390) to (239, 972)
Your task to perform on an android device: Show the shopping cart on amazon.com. Search for "dell alienware" on amazon.com, select the first entry, and add it to the cart. Image 46: 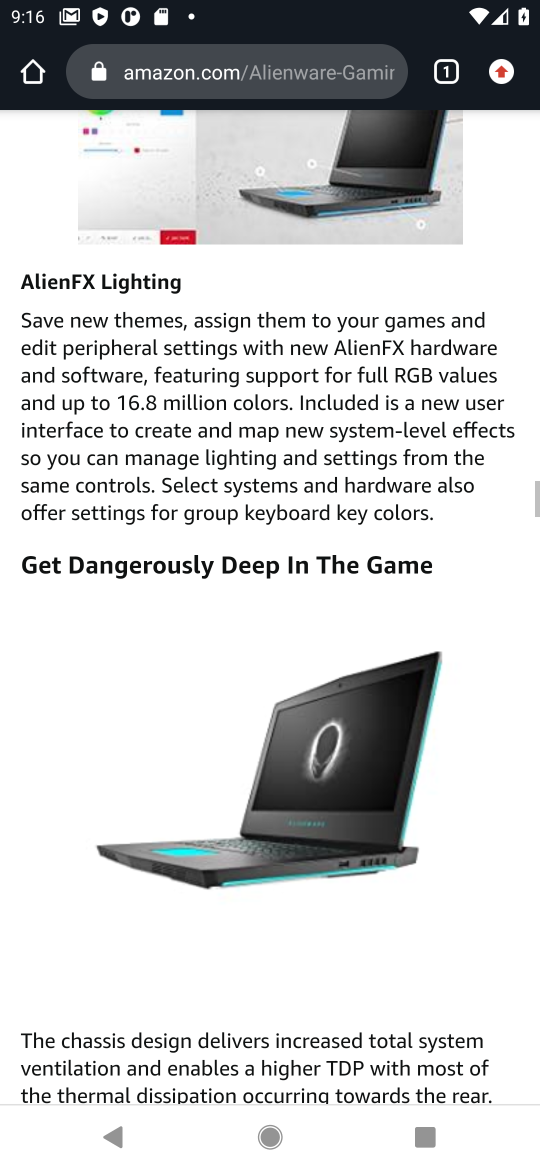
Step 46: drag from (410, 346) to (335, 784)
Your task to perform on an android device: Show the shopping cart on amazon.com. Search for "dell alienware" on amazon.com, select the first entry, and add it to the cart. Image 47: 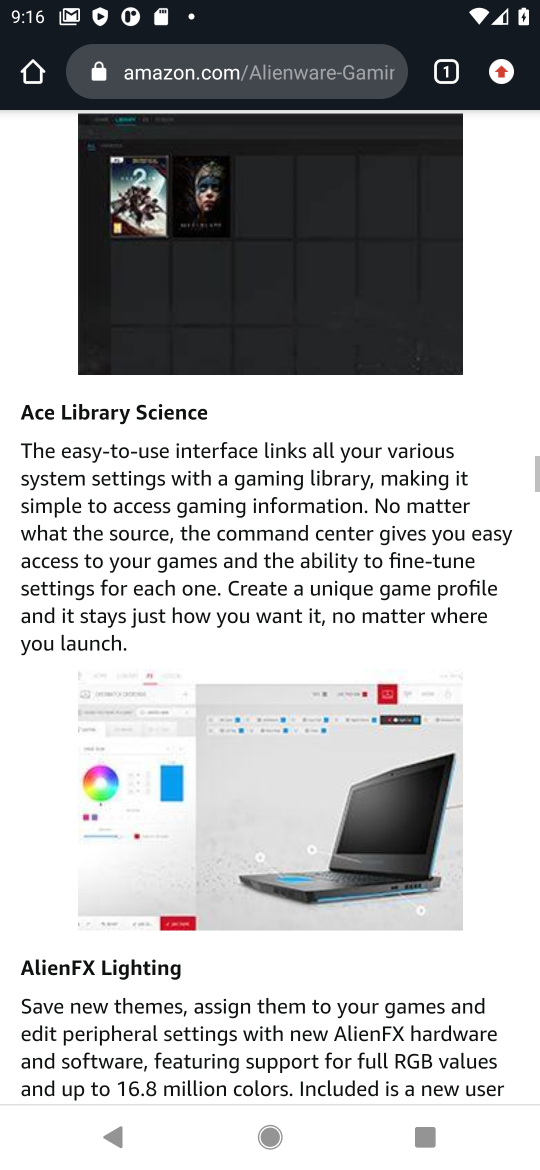
Step 47: drag from (498, 189) to (215, 752)
Your task to perform on an android device: Show the shopping cart on amazon.com. Search for "dell alienware" on amazon.com, select the first entry, and add it to the cart. Image 48: 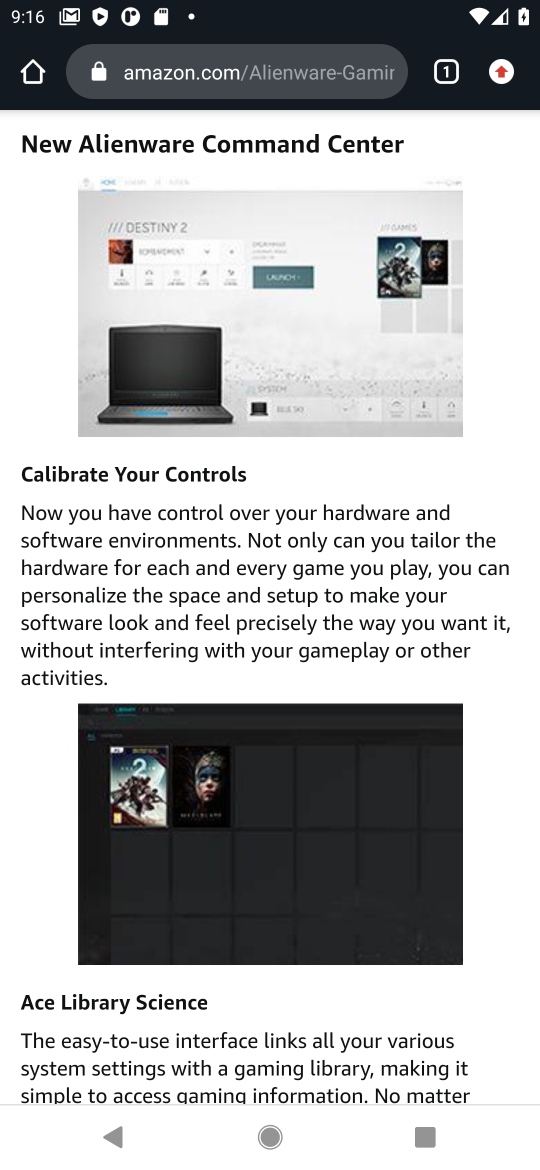
Step 48: press back button
Your task to perform on an android device: Show the shopping cart on amazon.com. Search for "dell alienware" on amazon.com, select the first entry, and add it to the cart. Image 49: 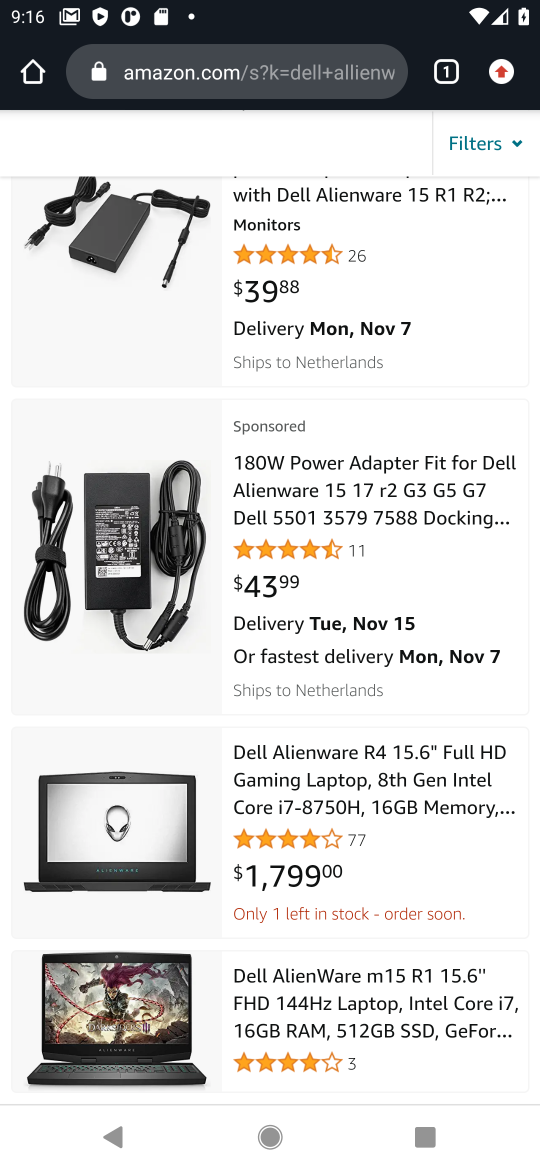
Step 49: click (260, 817)
Your task to perform on an android device: Show the shopping cart on amazon.com. Search for "dell alienware" on amazon.com, select the first entry, and add it to the cart. Image 50: 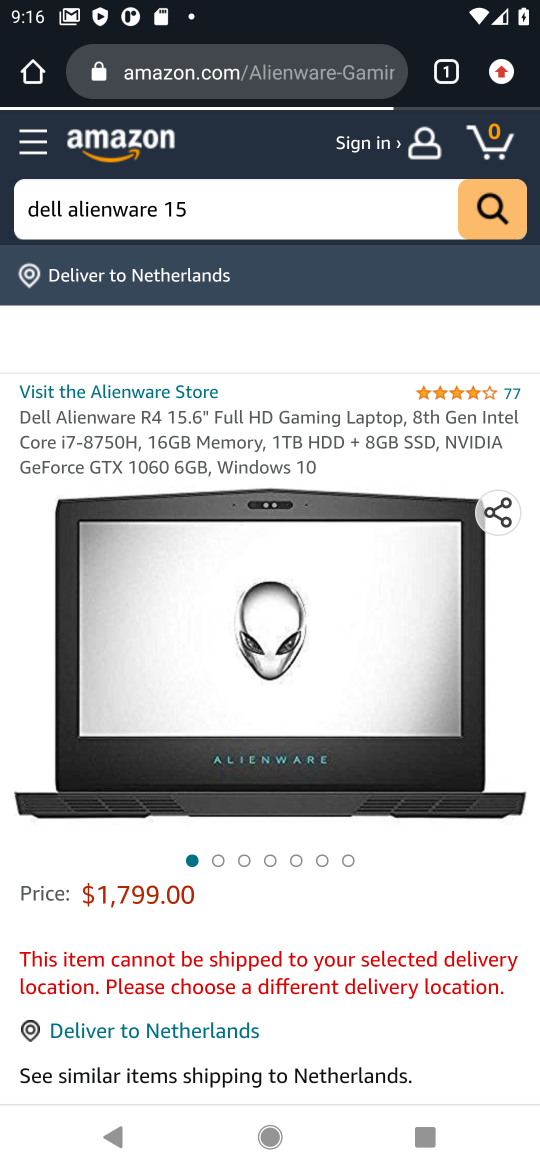
Step 50: drag from (177, 850) to (101, 457)
Your task to perform on an android device: Show the shopping cart on amazon.com. Search for "dell alienware" on amazon.com, select the first entry, and add it to the cart. Image 51: 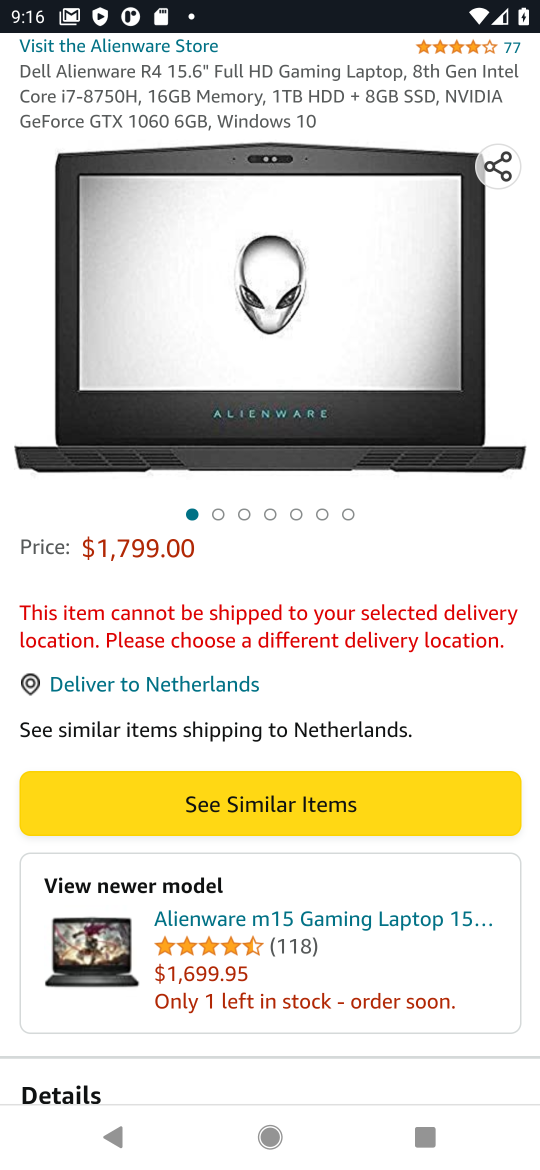
Step 51: press back button
Your task to perform on an android device: Show the shopping cart on amazon.com. Search for "dell alienware" on amazon.com, select the first entry, and add it to the cart. Image 52: 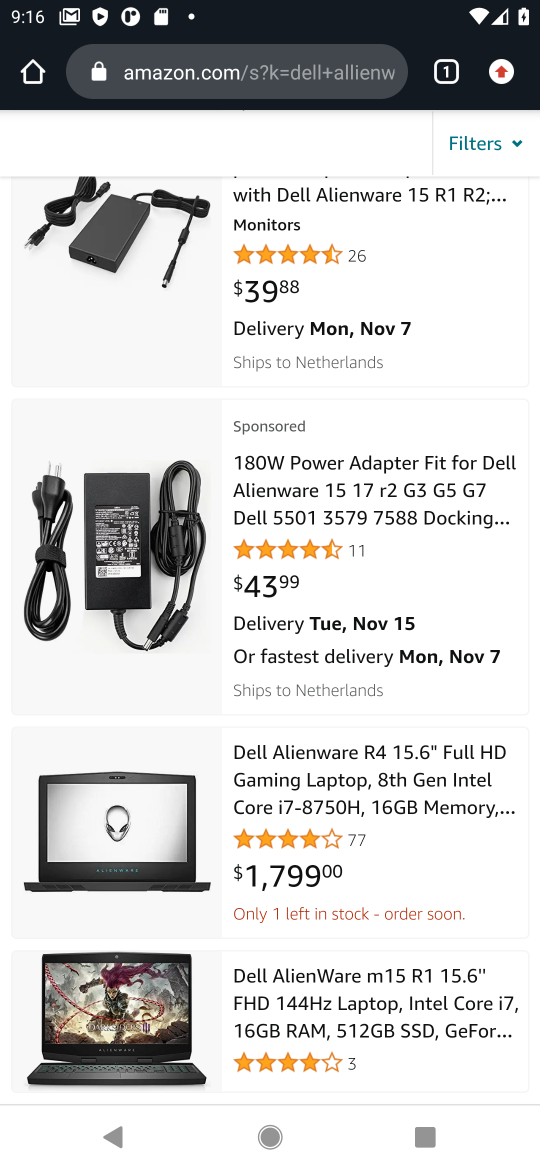
Step 52: drag from (330, 930) to (357, 142)
Your task to perform on an android device: Show the shopping cart on amazon.com. Search for "dell alienware" on amazon.com, select the first entry, and add it to the cart. Image 53: 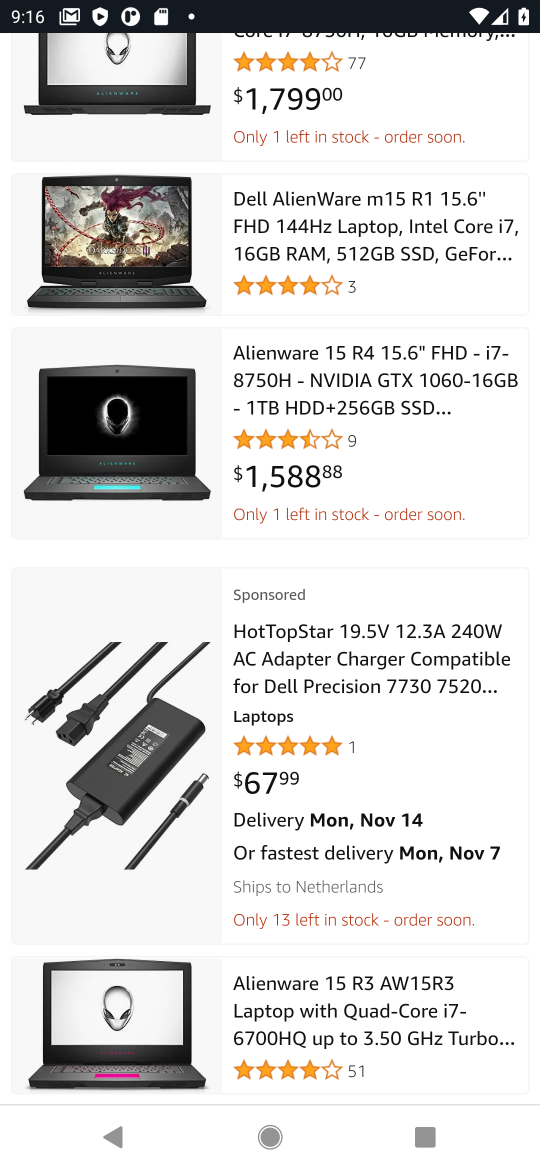
Step 53: drag from (336, 431) to (285, 703)
Your task to perform on an android device: Show the shopping cart on amazon.com. Search for "dell alienware" on amazon.com, select the first entry, and add it to the cart. Image 54: 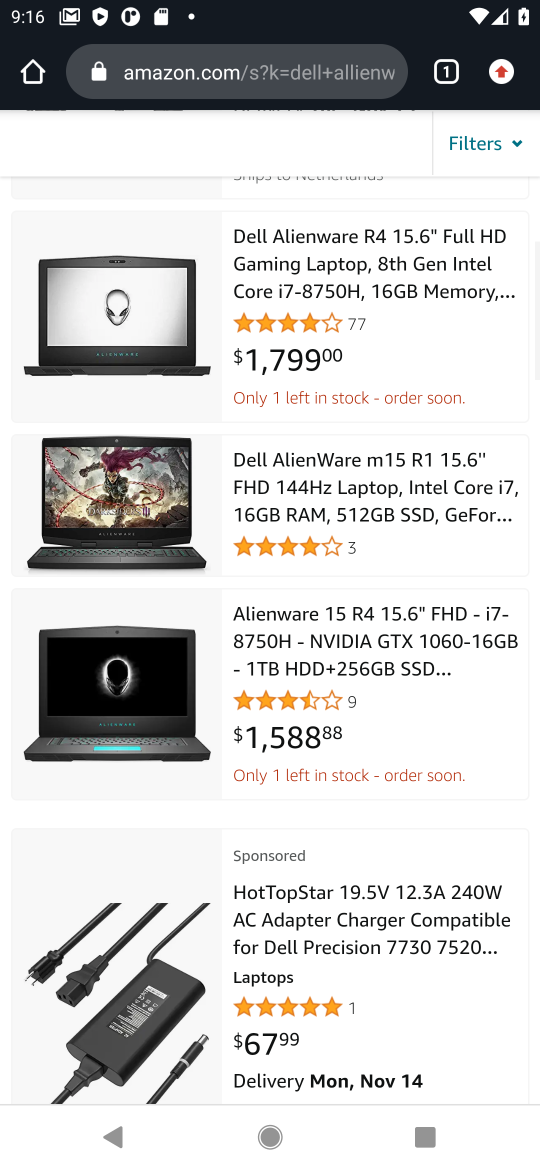
Step 54: click (323, 676)
Your task to perform on an android device: Show the shopping cart on amazon.com. Search for "dell alienware" on amazon.com, select the first entry, and add it to the cart. Image 55: 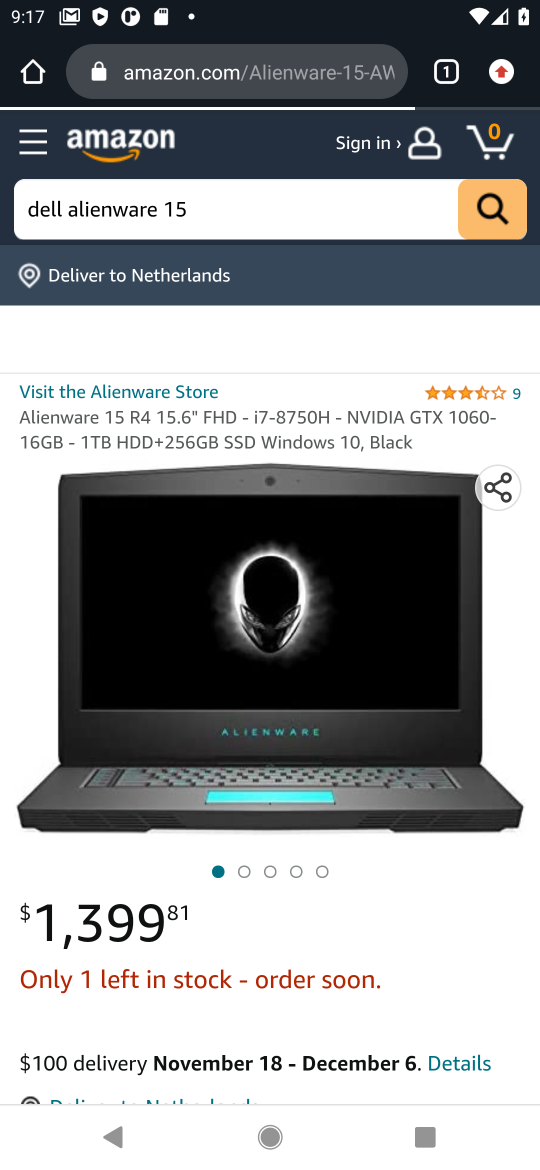
Step 55: drag from (267, 916) to (328, 374)
Your task to perform on an android device: Show the shopping cart on amazon.com. Search for "dell alienware" on amazon.com, select the first entry, and add it to the cart. Image 56: 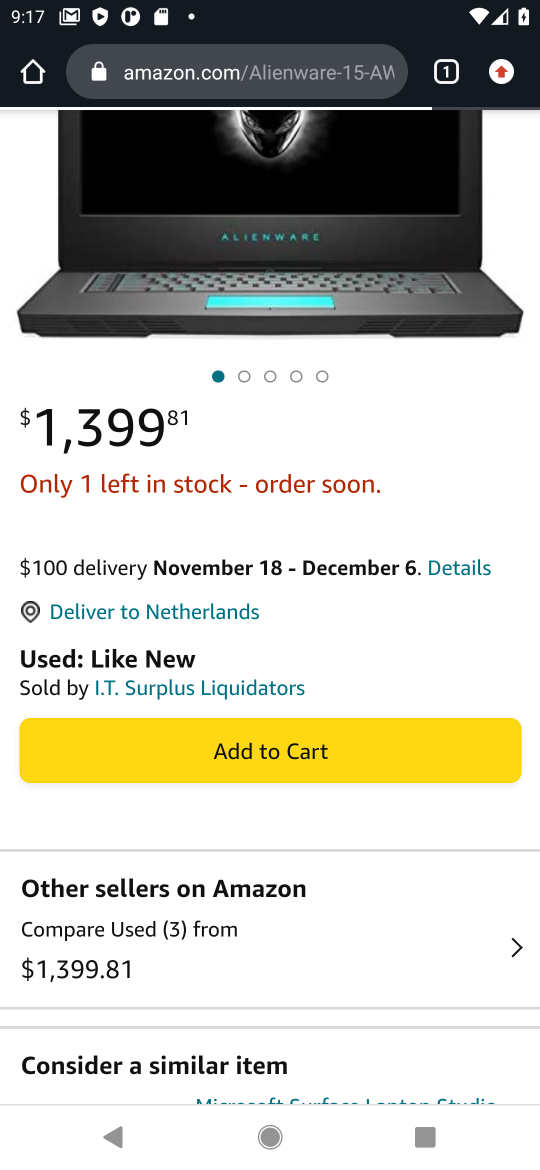
Step 56: click (261, 722)
Your task to perform on an android device: Show the shopping cart on amazon.com. Search for "dell alienware" on amazon.com, select the first entry, and add it to the cart. Image 57: 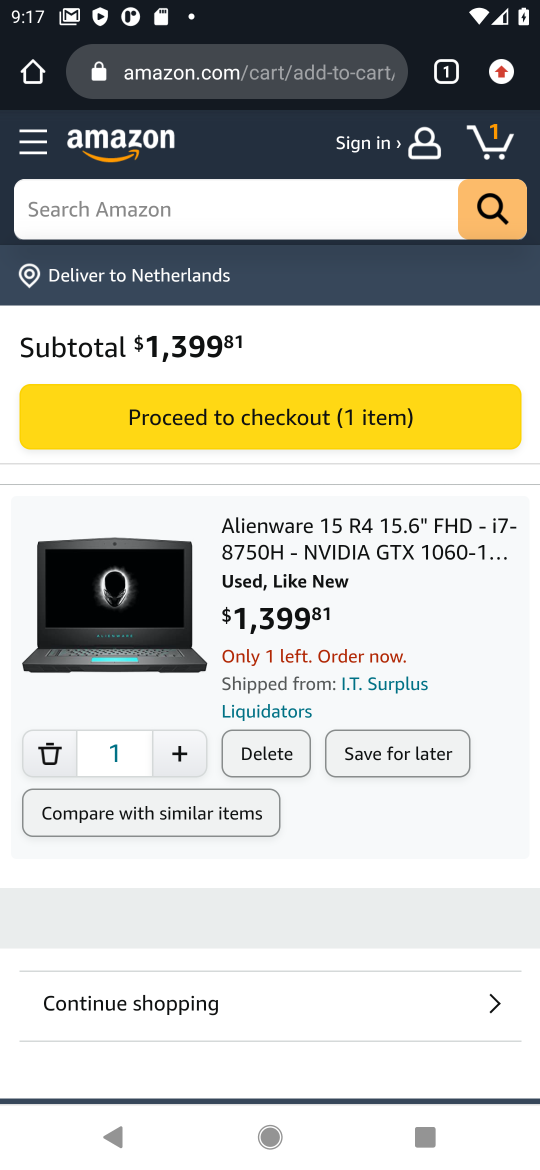
Step 57: task complete